Your task to perform on an android device: How much does a 3 bedroom apartment rent for in Houston? Image 0: 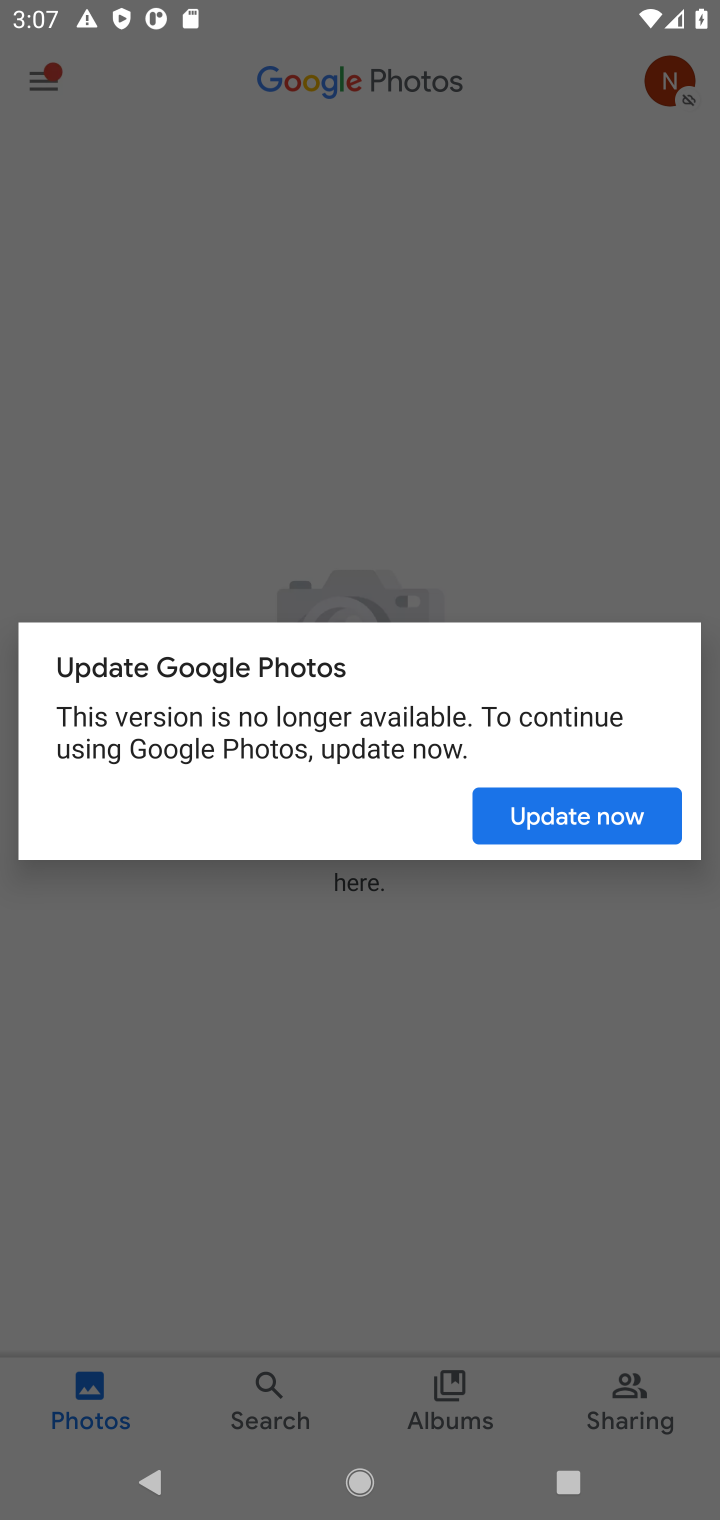
Step 0: press home button
Your task to perform on an android device: How much does a 3 bedroom apartment rent for in Houston? Image 1: 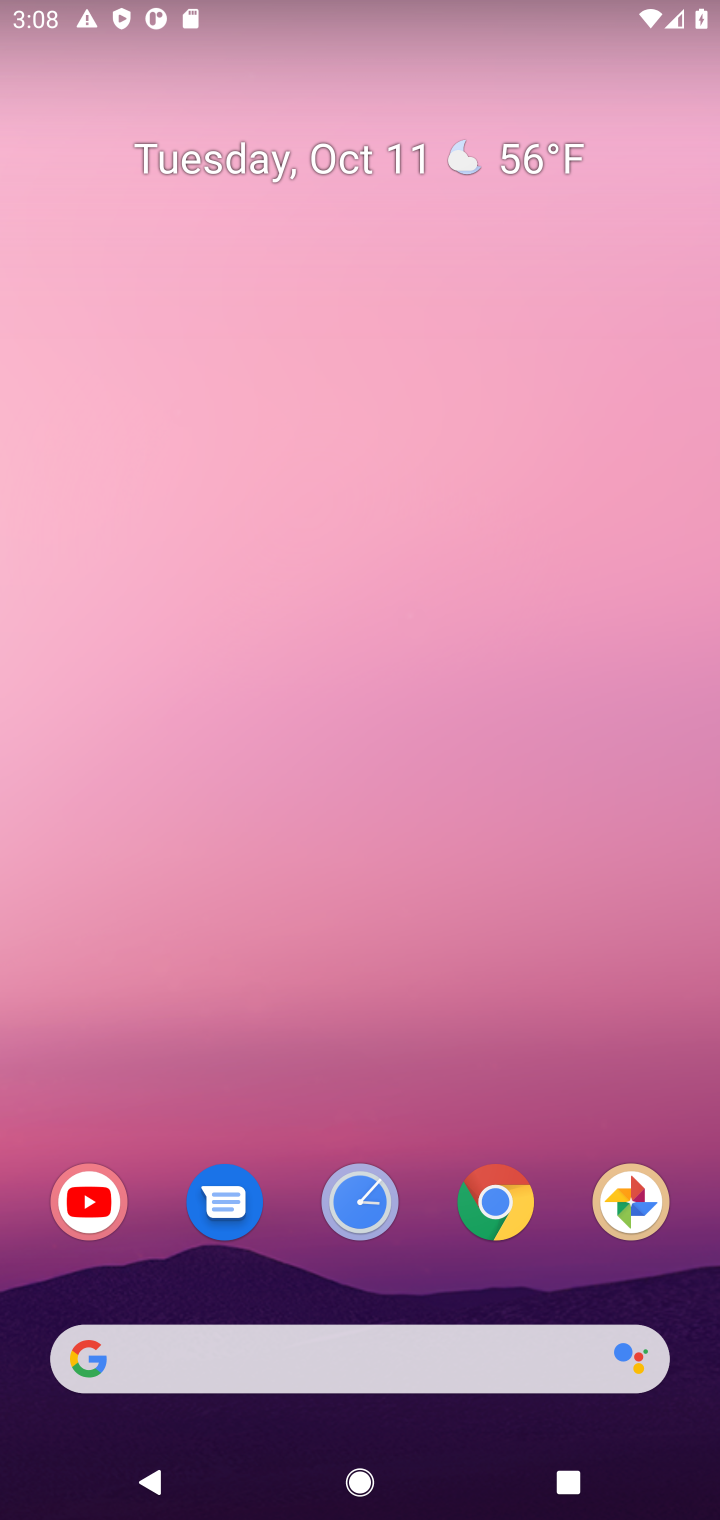
Step 1: drag from (432, 1287) to (326, 40)
Your task to perform on an android device: How much does a 3 bedroom apartment rent for in Houston? Image 2: 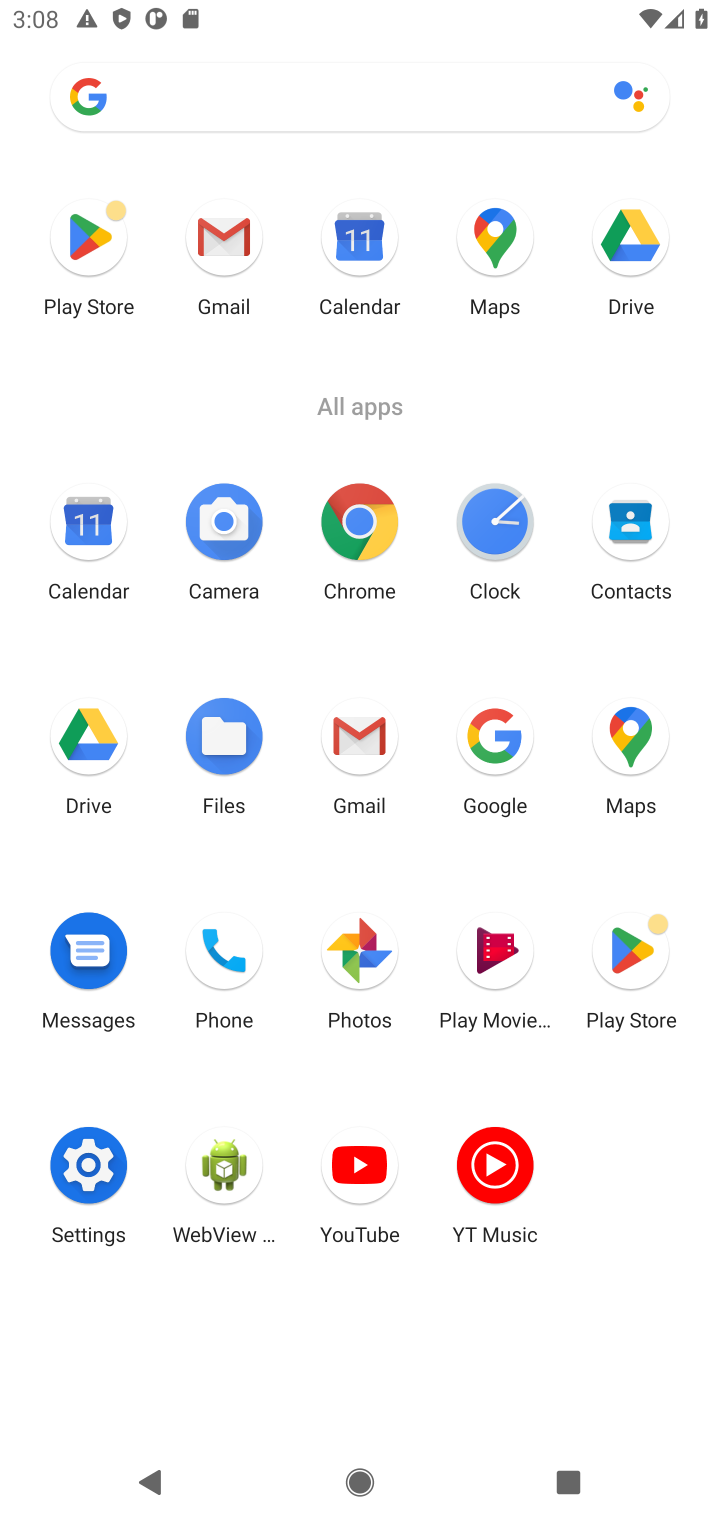
Step 2: click (359, 536)
Your task to perform on an android device: How much does a 3 bedroom apartment rent for in Houston? Image 3: 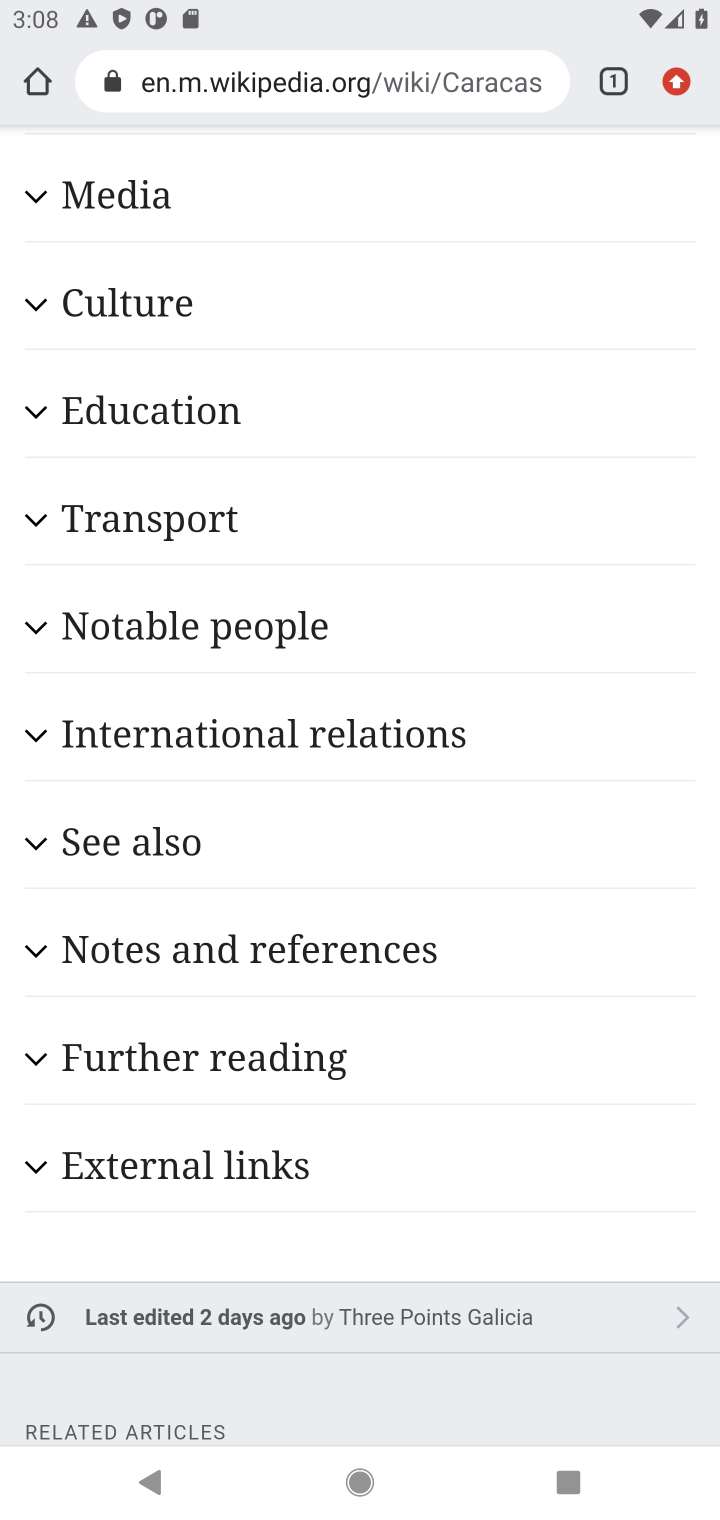
Step 3: click (268, 103)
Your task to perform on an android device: How much does a 3 bedroom apartment rent for in Houston? Image 4: 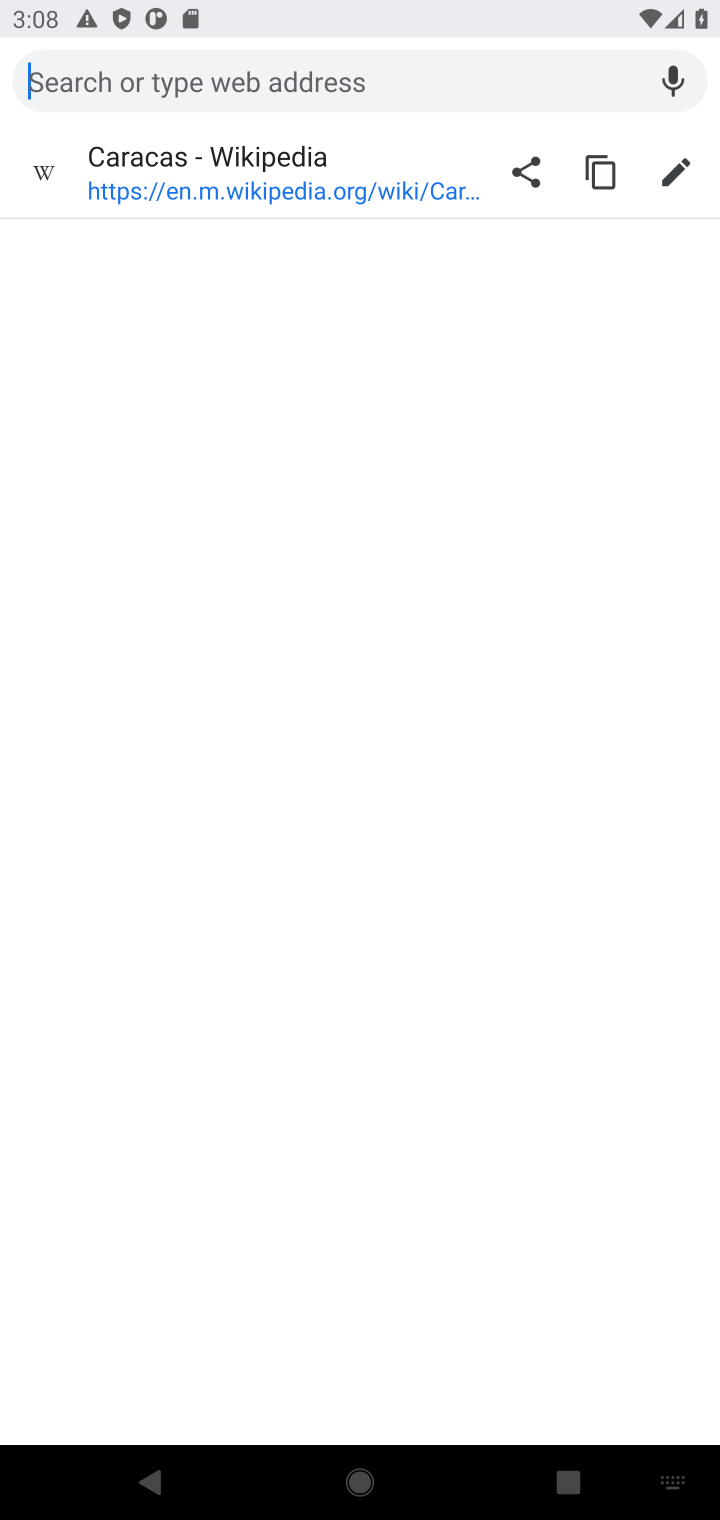
Step 4: type "How much does a 3 bedroom apartment rent for in Houston?"
Your task to perform on an android device: How much does a 3 bedroom apartment rent for in Houston? Image 5: 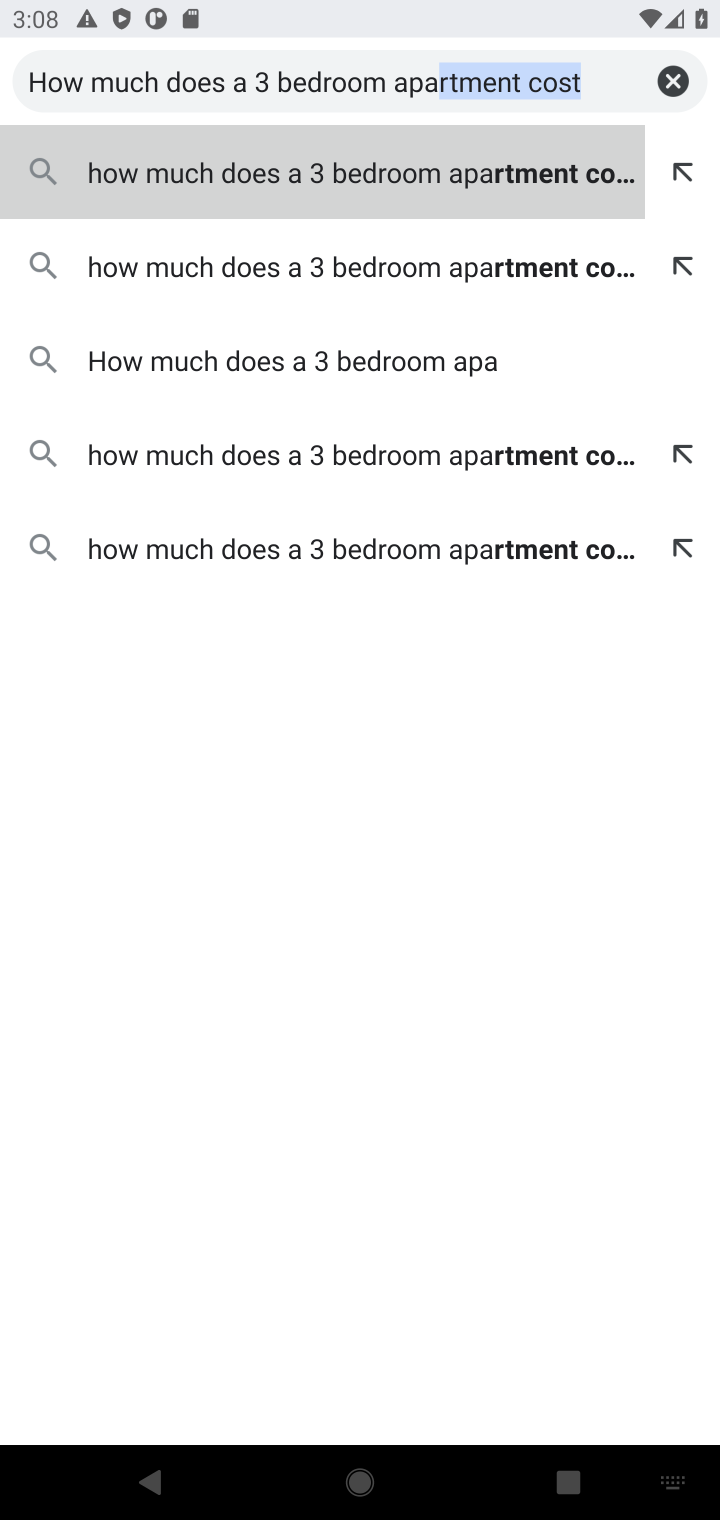
Step 5: press enter
Your task to perform on an android device: How much does a 3 bedroom apartment rent for in Houston? Image 6: 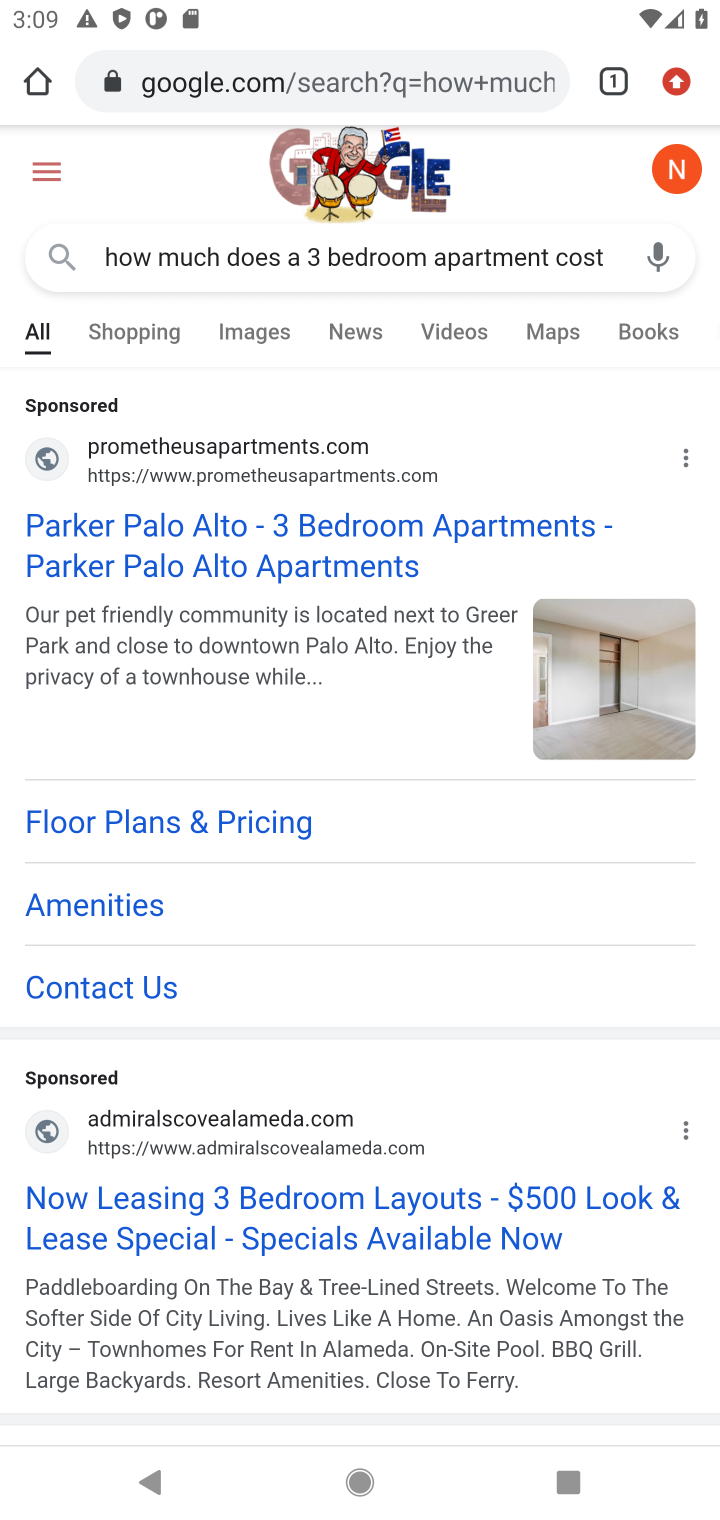
Step 6: drag from (512, 355) to (495, 90)
Your task to perform on an android device: How much does a 3 bedroom apartment rent for in Houston? Image 7: 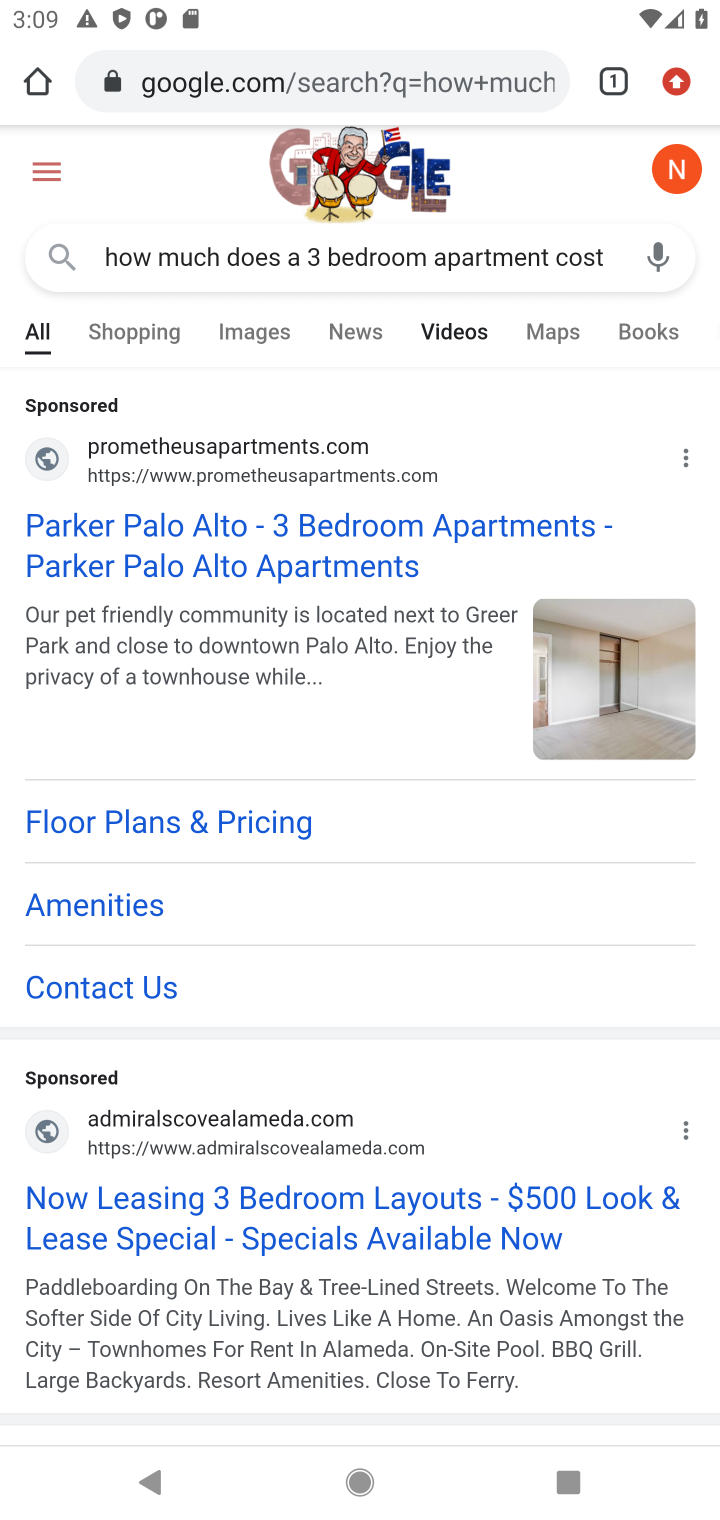
Step 7: drag from (380, 597) to (444, 293)
Your task to perform on an android device: How much does a 3 bedroom apartment rent for in Houston? Image 8: 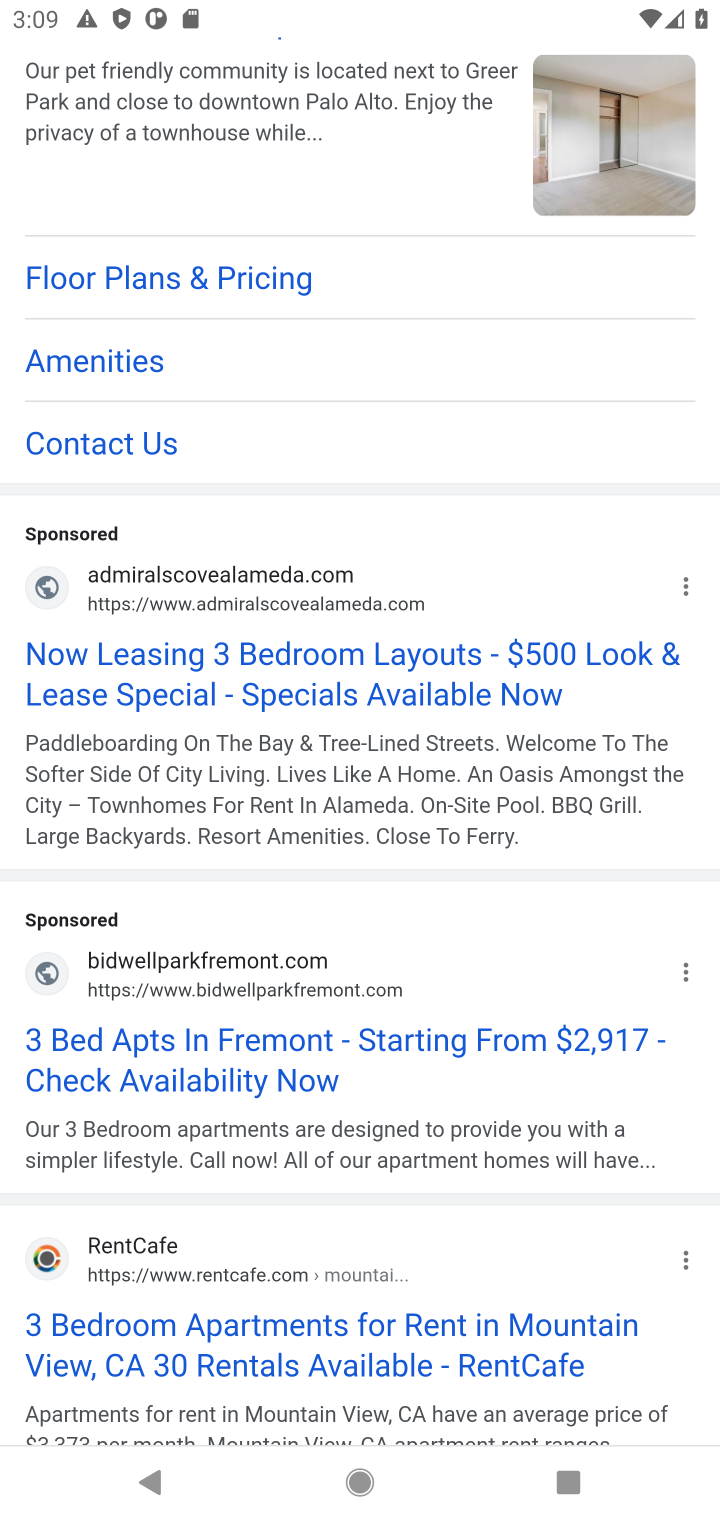
Step 8: click (217, 653)
Your task to perform on an android device: How much does a 3 bedroom apartment rent for in Houston? Image 9: 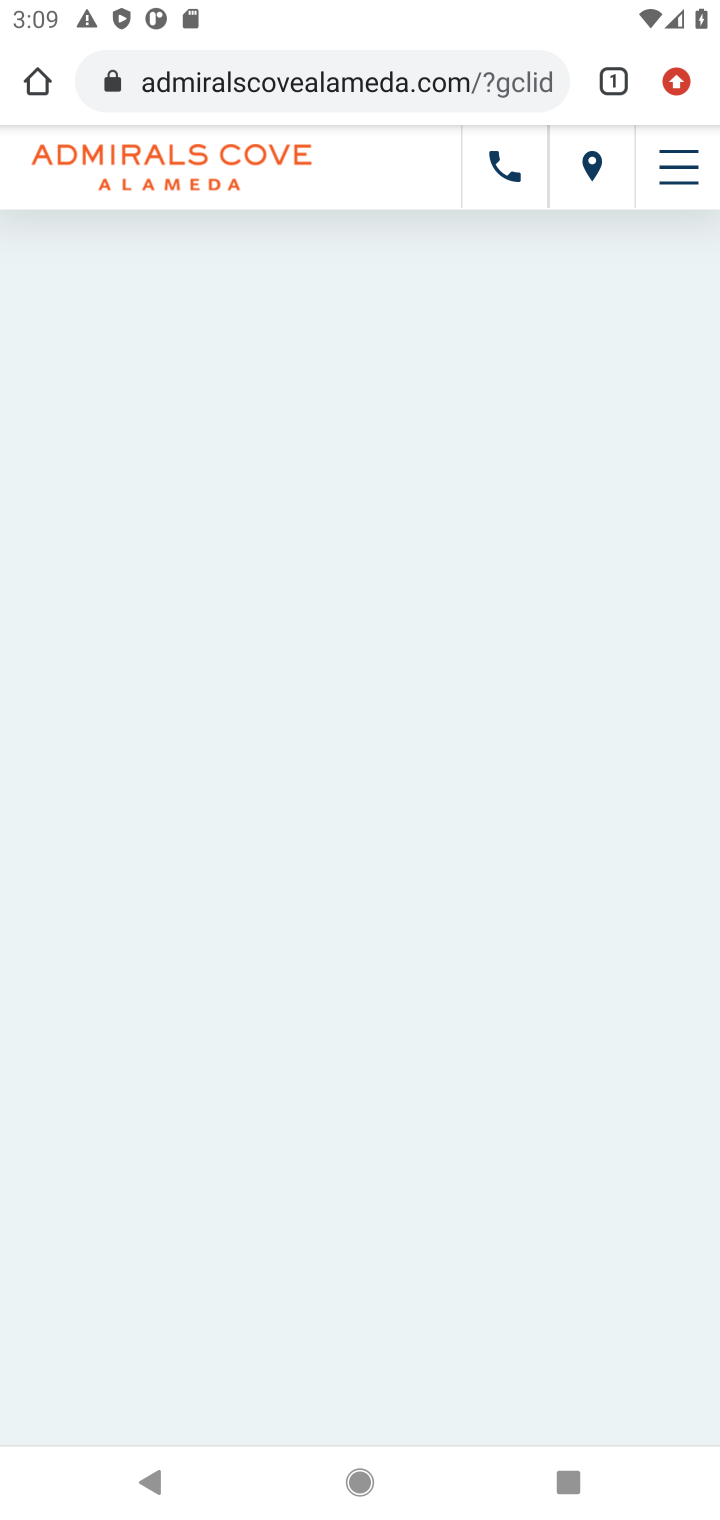
Step 9: drag from (335, 859) to (463, 864)
Your task to perform on an android device: How much does a 3 bedroom apartment rent for in Houston? Image 10: 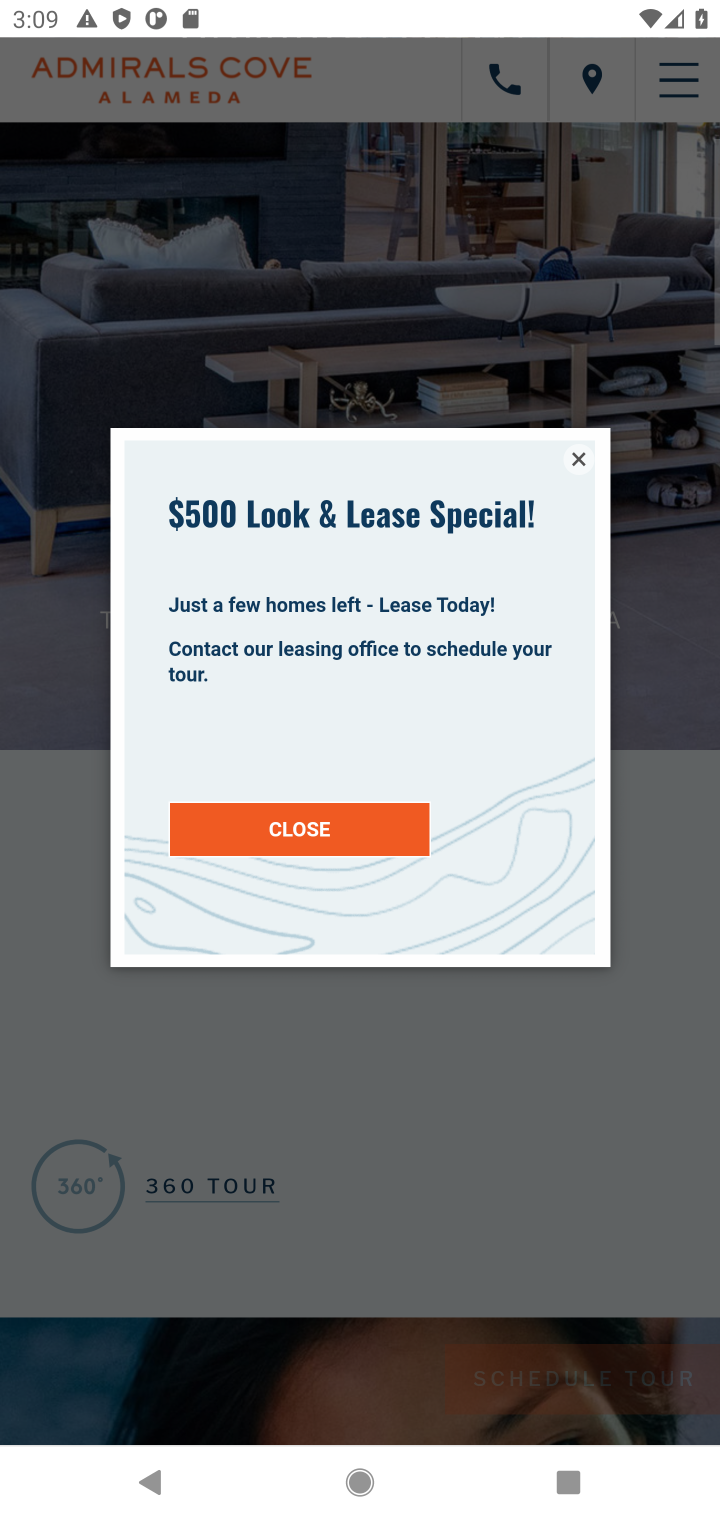
Step 10: click (291, 900)
Your task to perform on an android device: How much does a 3 bedroom apartment rent for in Houston? Image 11: 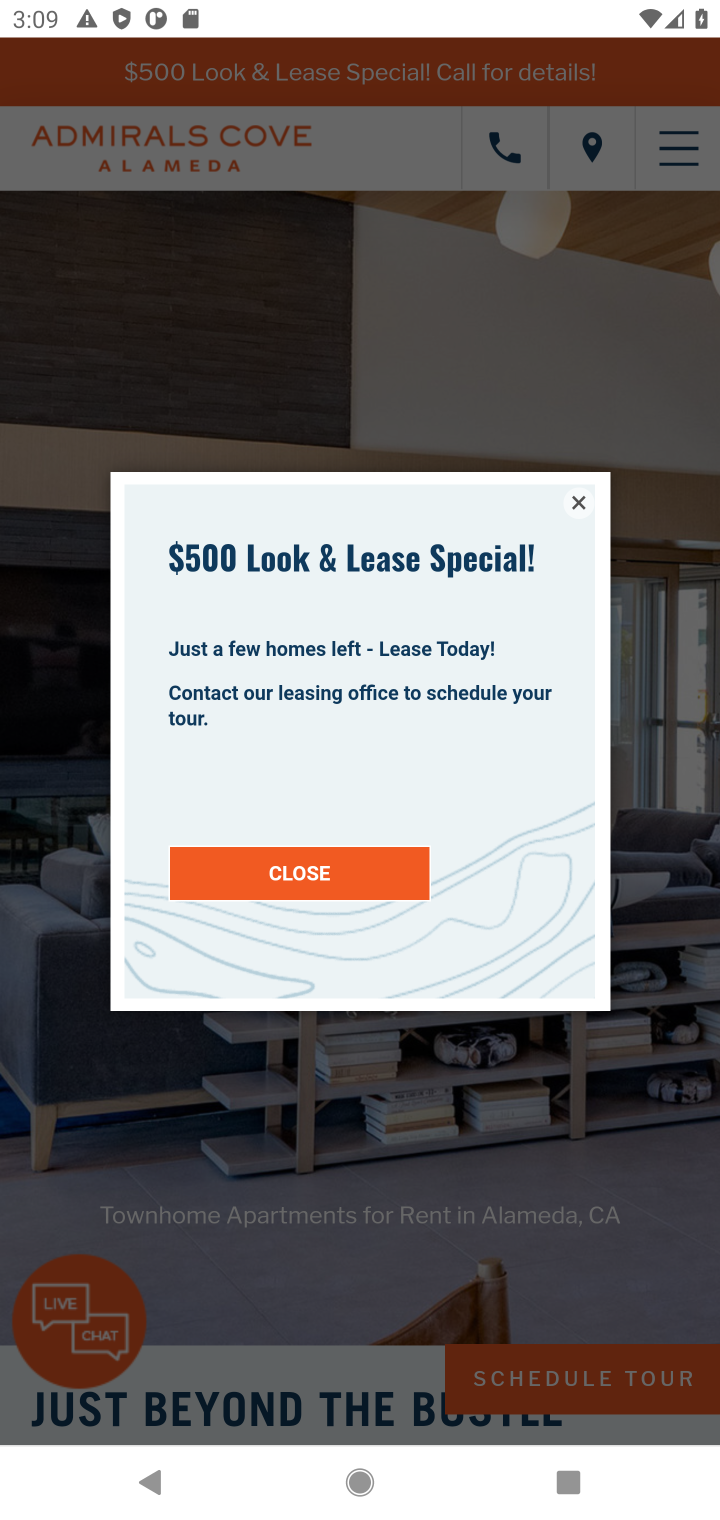
Step 11: click (289, 857)
Your task to perform on an android device: How much does a 3 bedroom apartment rent for in Houston? Image 12: 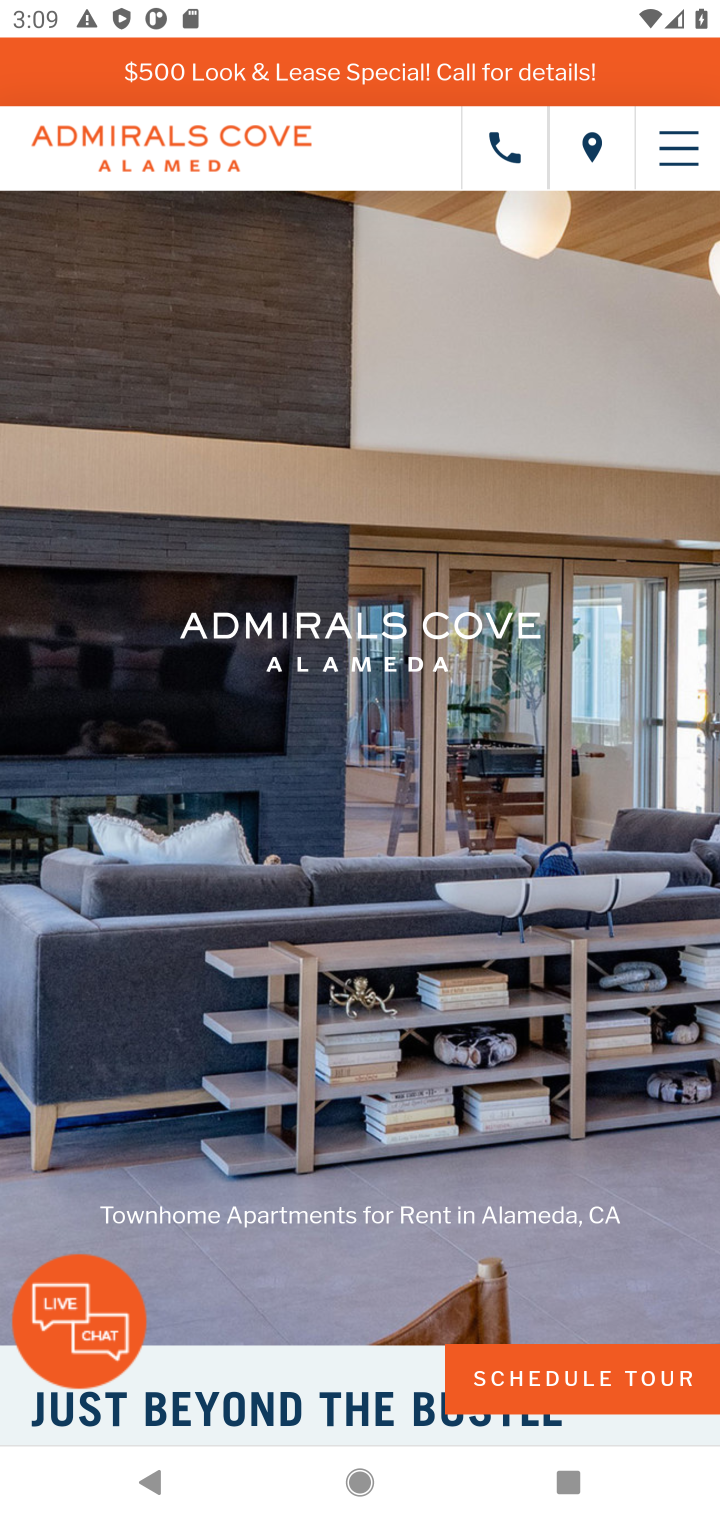
Step 12: drag from (506, 474) to (538, 352)
Your task to perform on an android device: How much does a 3 bedroom apartment rent for in Houston? Image 13: 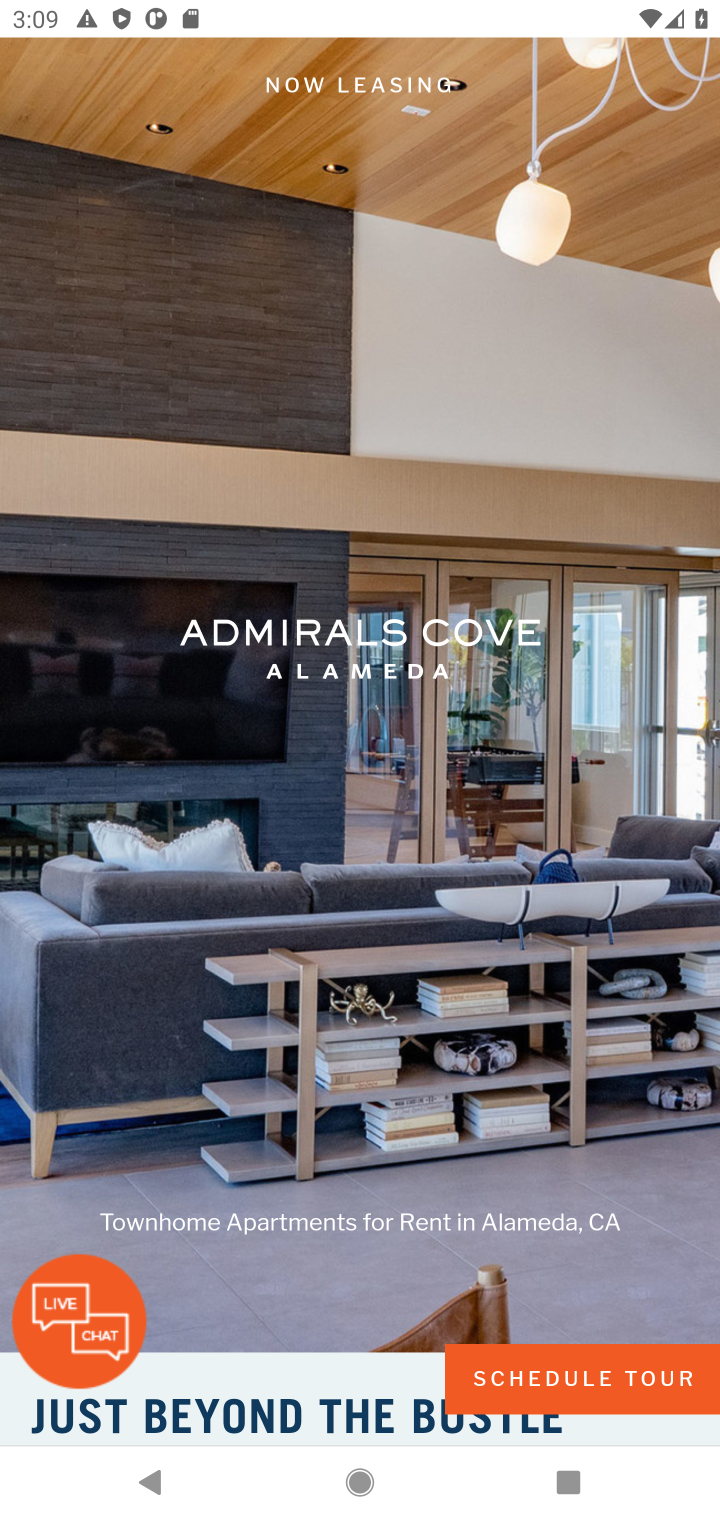
Step 13: drag from (559, 338) to (474, 548)
Your task to perform on an android device: How much does a 3 bedroom apartment rent for in Houston? Image 14: 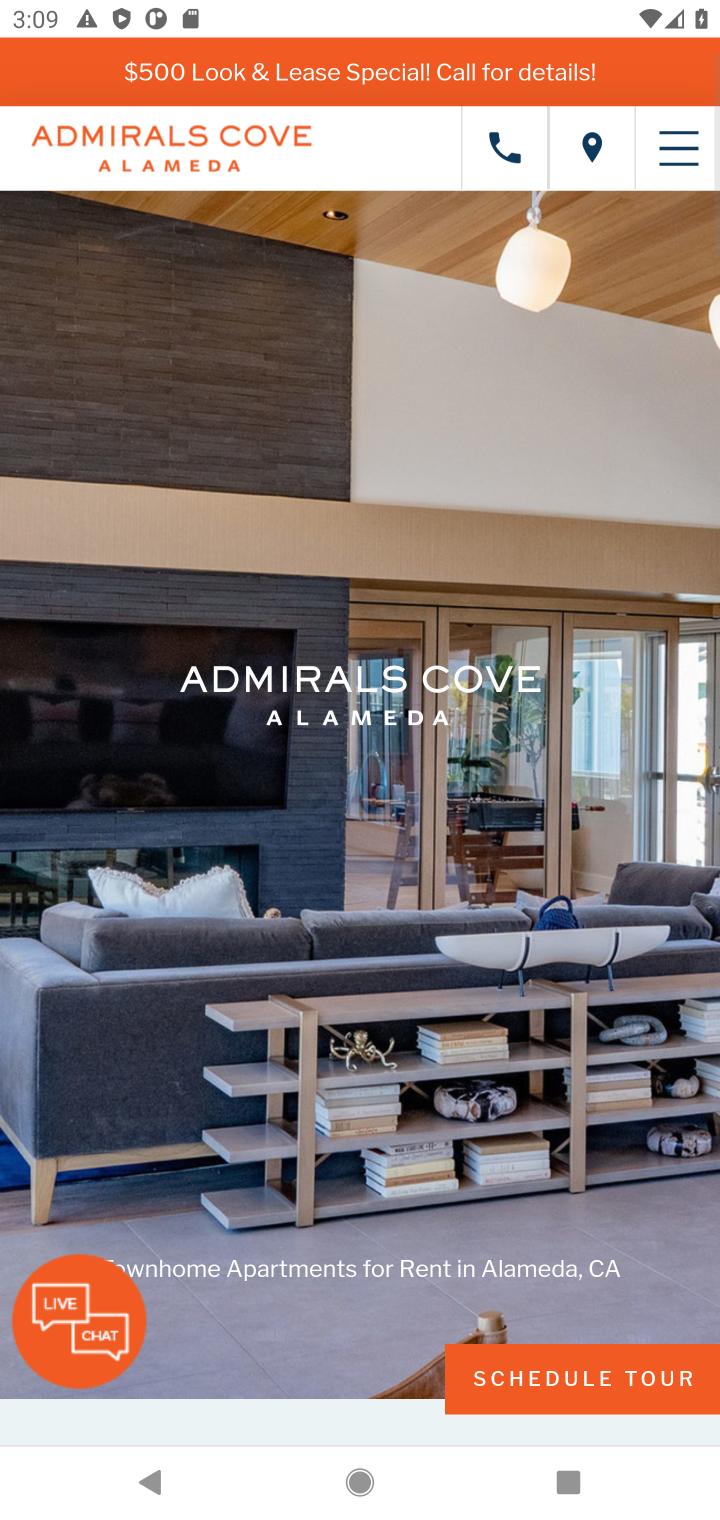
Step 14: click (535, 385)
Your task to perform on an android device: How much does a 3 bedroom apartment rent for in Houston? Image 15: 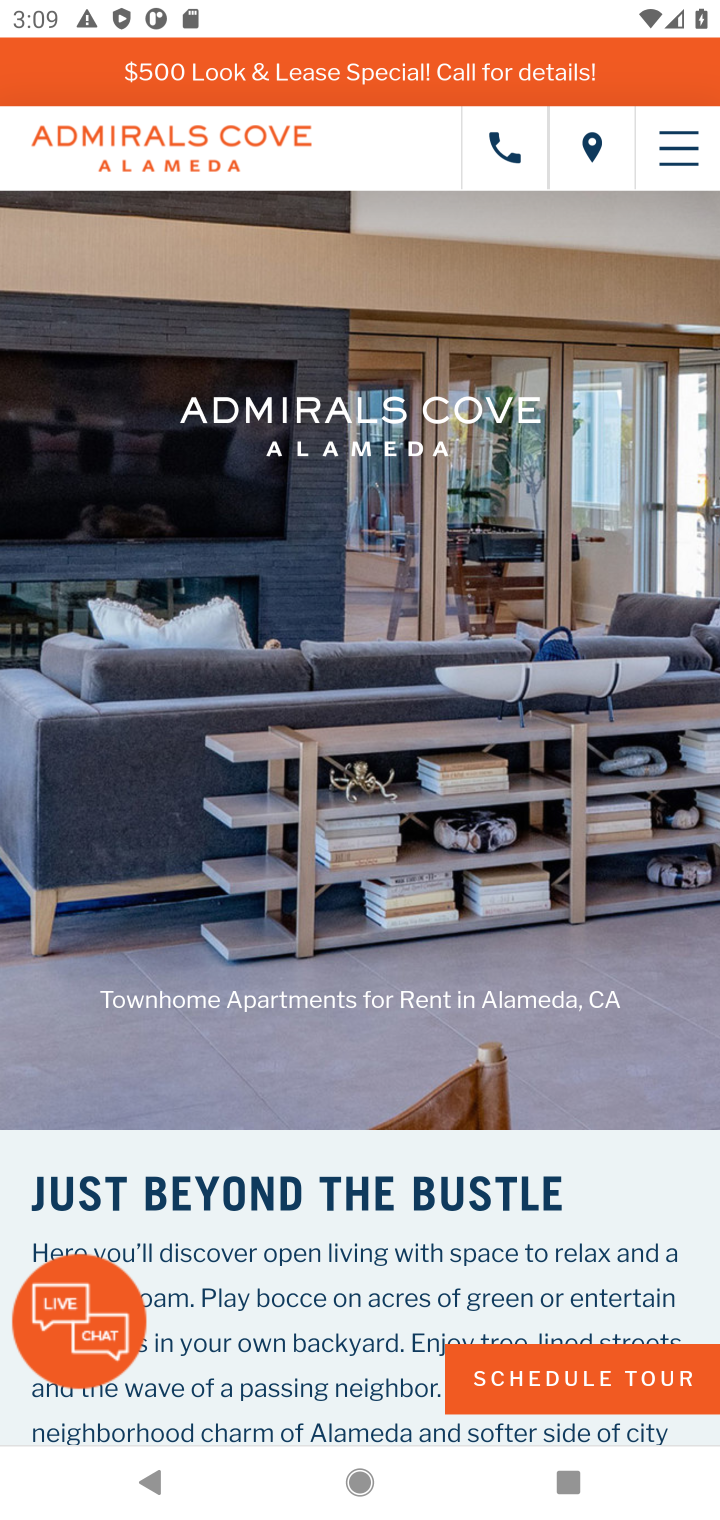
Step 15: press back button
Your task to perform on an android device: How much does a 3 bedroom apartment rent for in Houston? Image 16: 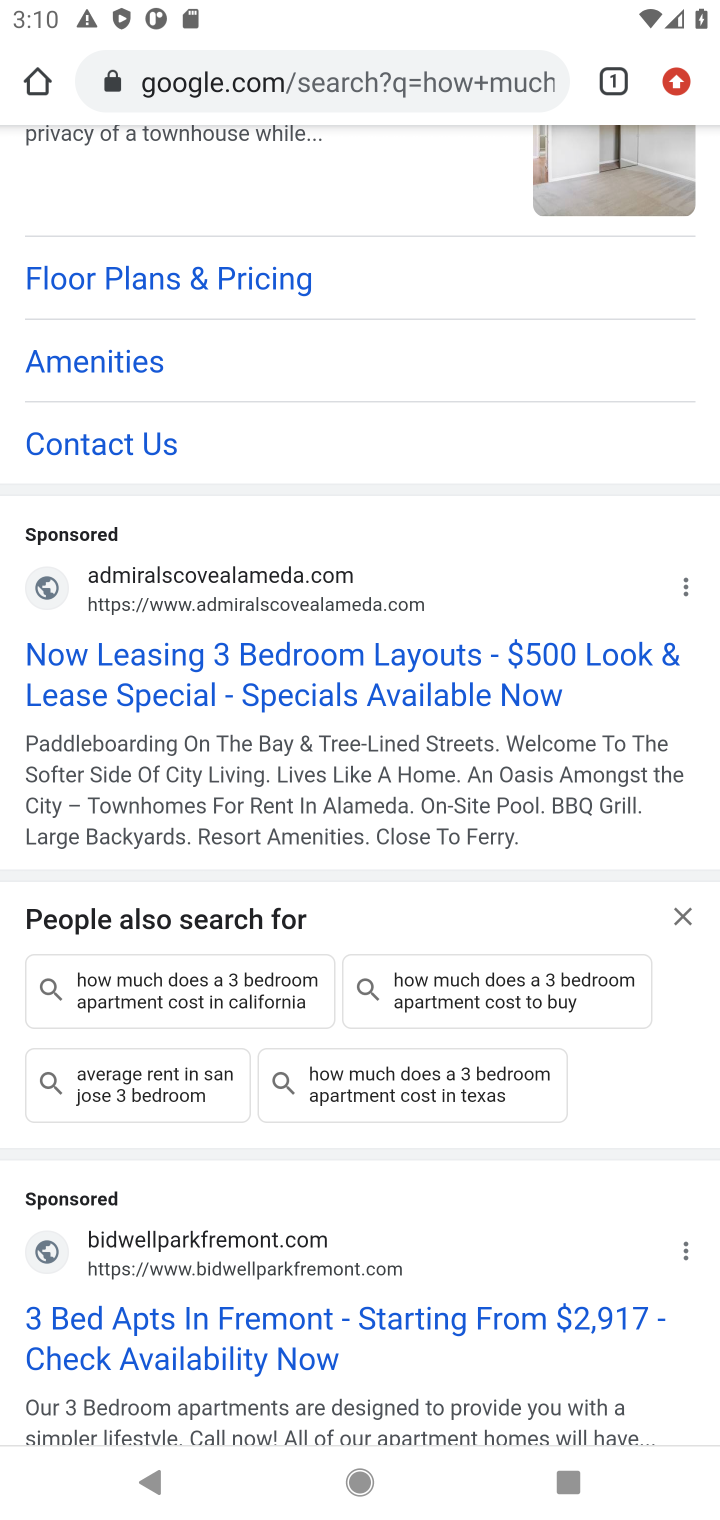
Step 16: drag from (399, 829) to (401, 360)
Your task to perform on an android device: How much does a 3 bedroom apartment rent for in Houston? Image 17: 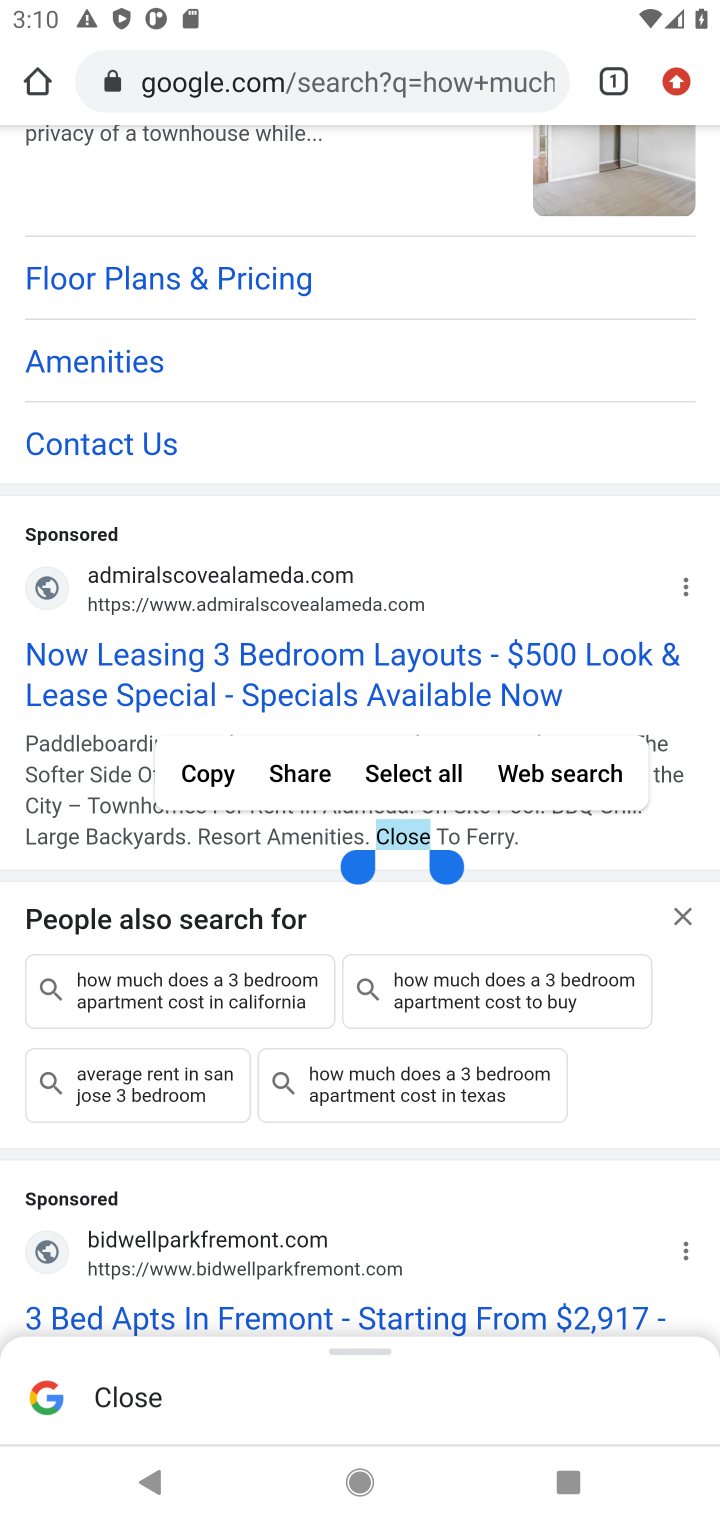
Step 17: click (239, 1296)
Your task to perform on an android device: How much does a 3 bedroom apartment rent for in Houston? Image 18: 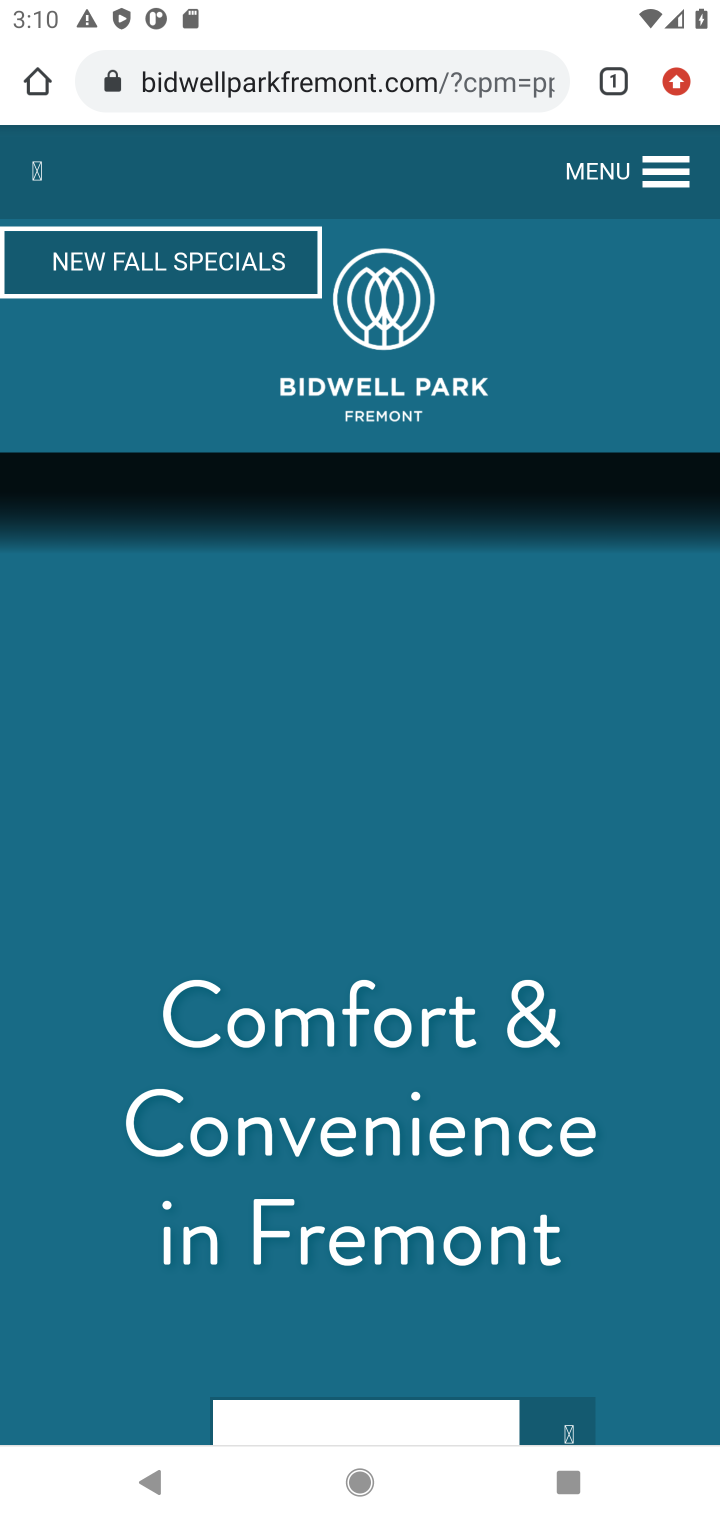
Step 18: drag from (239, 1294) to (338, 449)
Your task to perform on an android device: How much does a 3 bedroom apartment rent for in Houston? Image 19: 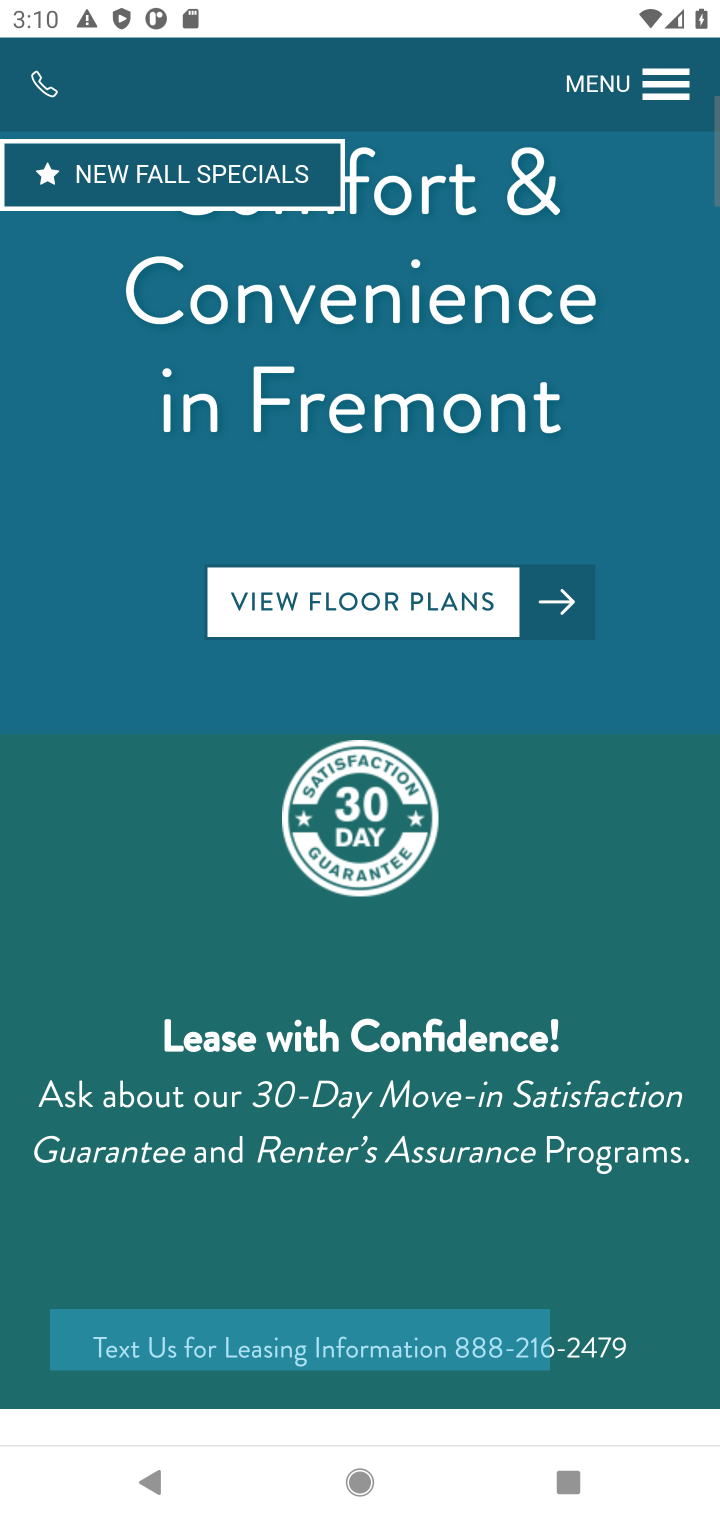
Step 19: drag from (367, 1223) to (389, 368)
Your task to perform on an android device: How much does a 3 bedroom apartment rent for in Houston? Image 20: 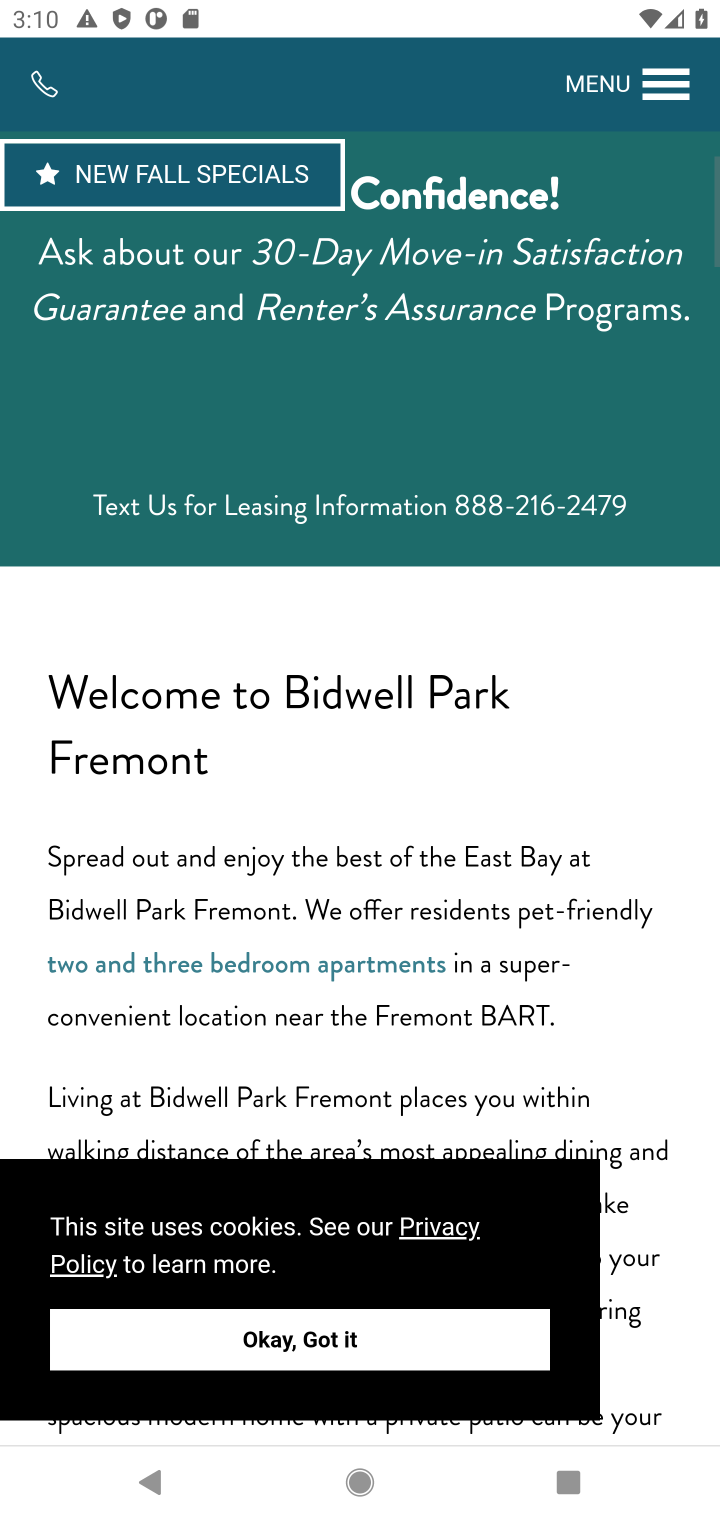
Step 20: drag from (429, 833) to (443, 334)
Your task to perform on an android device: How much does a 3 bedroom apartment rent for in Houston? Image 21: 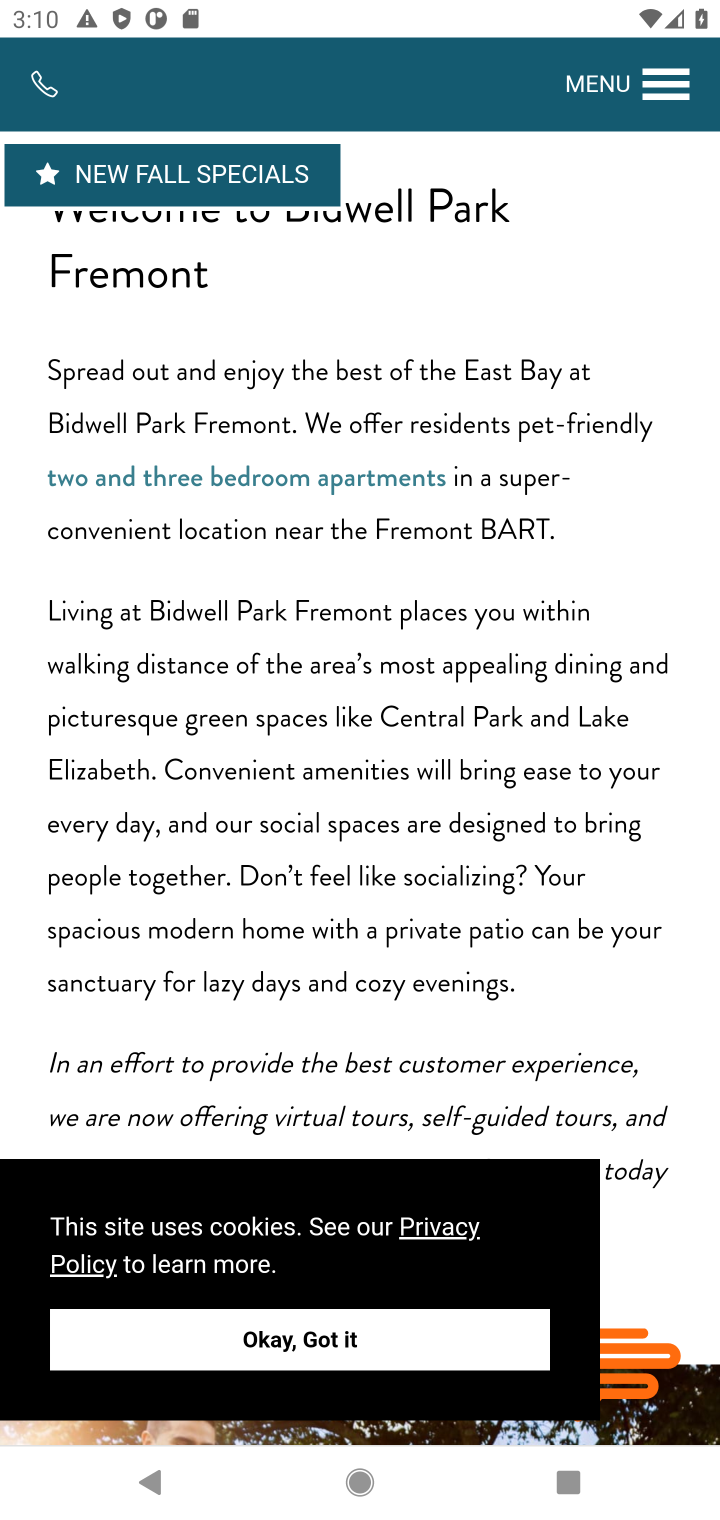
Step 21: click (284, 1322)
Your task to perform on an android device: How much does a 3 bedroom apartment rent for in Houston? Image 22: 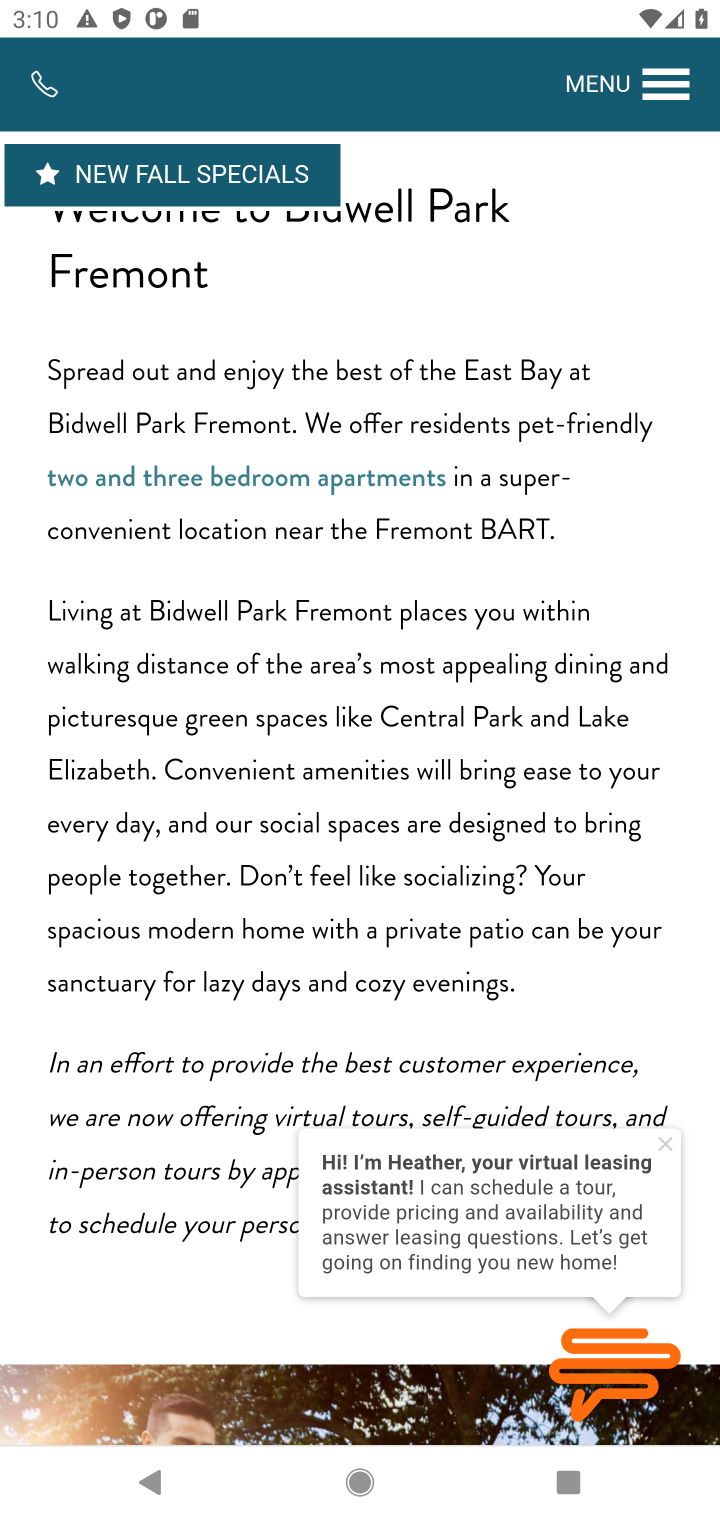
Step 22: drag from (338, 1097) to (379, 427)
Your task to perform on an android device: How much does a 3 bedroom apartment rent for in Houston? Image 23: 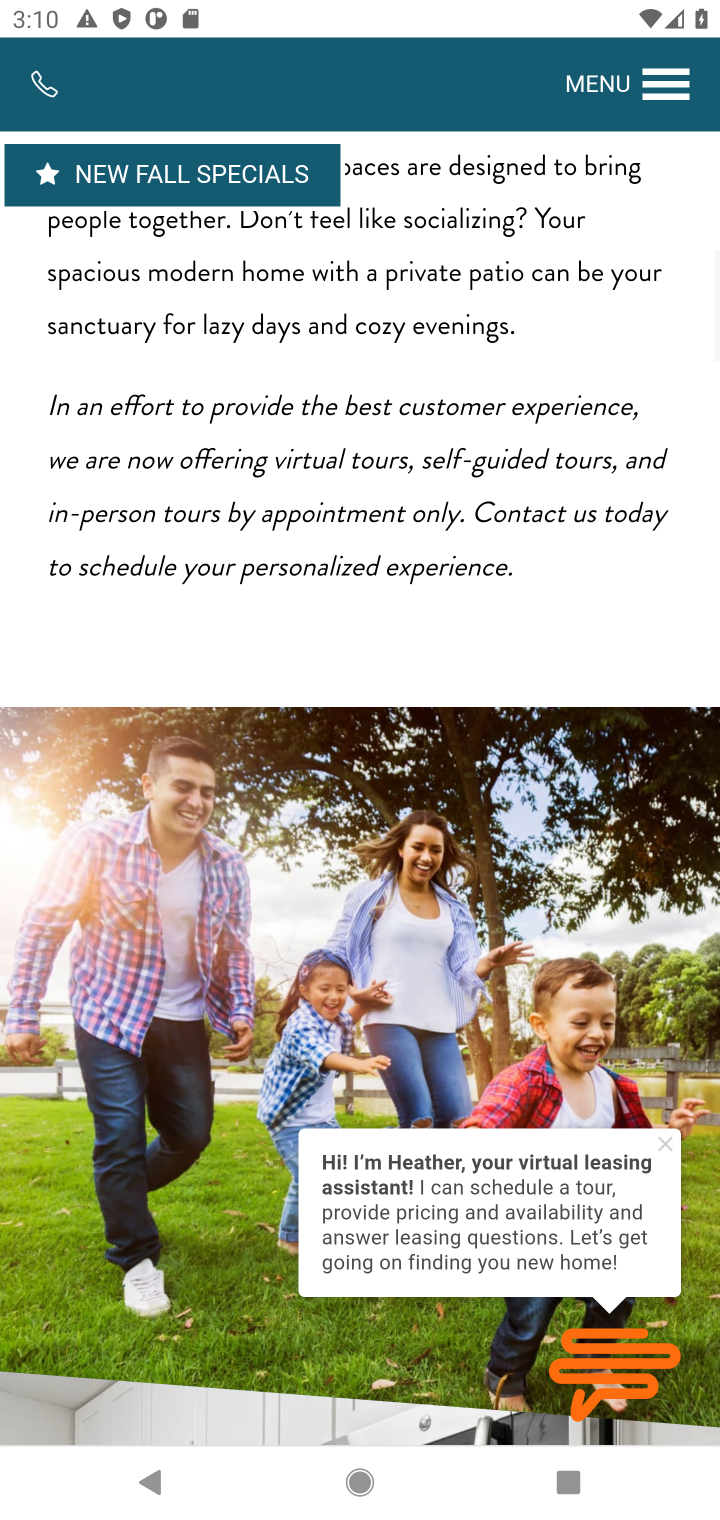
Step 23: drag from (424, 453) to (532, 262)
Your task to perform on an android device: How much does a 3 bedroom apartment rent for in Houston? Image 24: 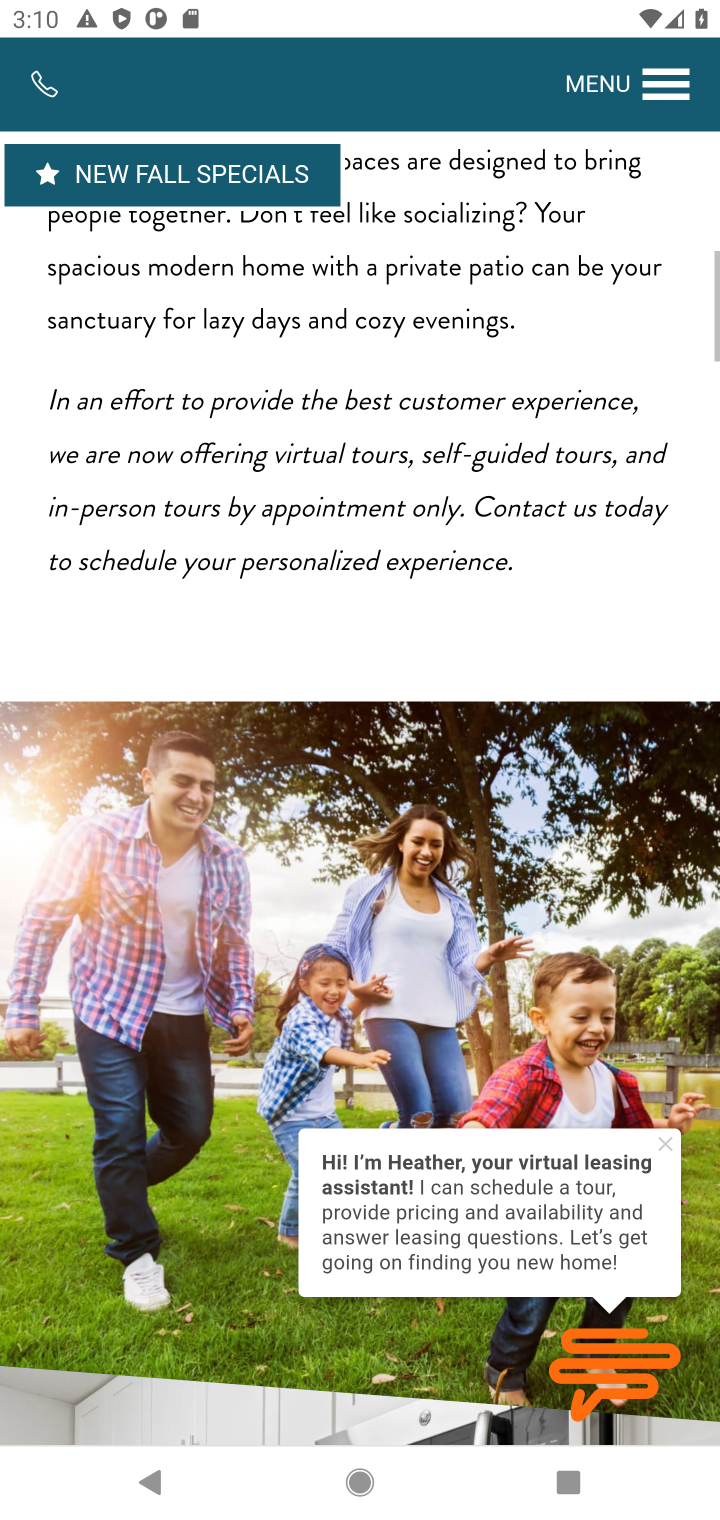
Step 24: click (529, 242)
Your task to perform on an android device: How much does a 3 bedroom apartment rent for in Houston? Image 25: 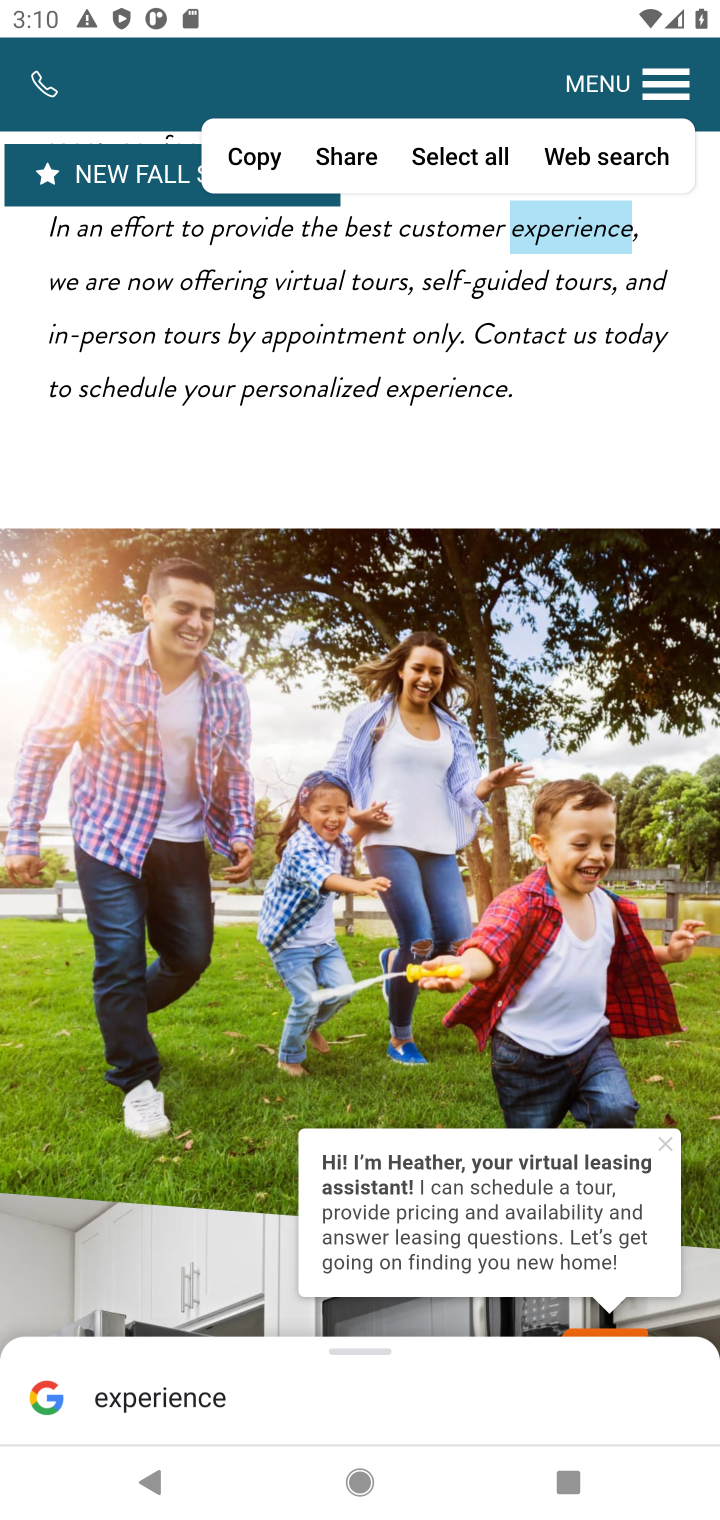
Step 25: drag from (427, 597) to (478, 265)
Your task to perform on an android device: How much does a 3 bedroom apartment rent for in Houston? Image 26: 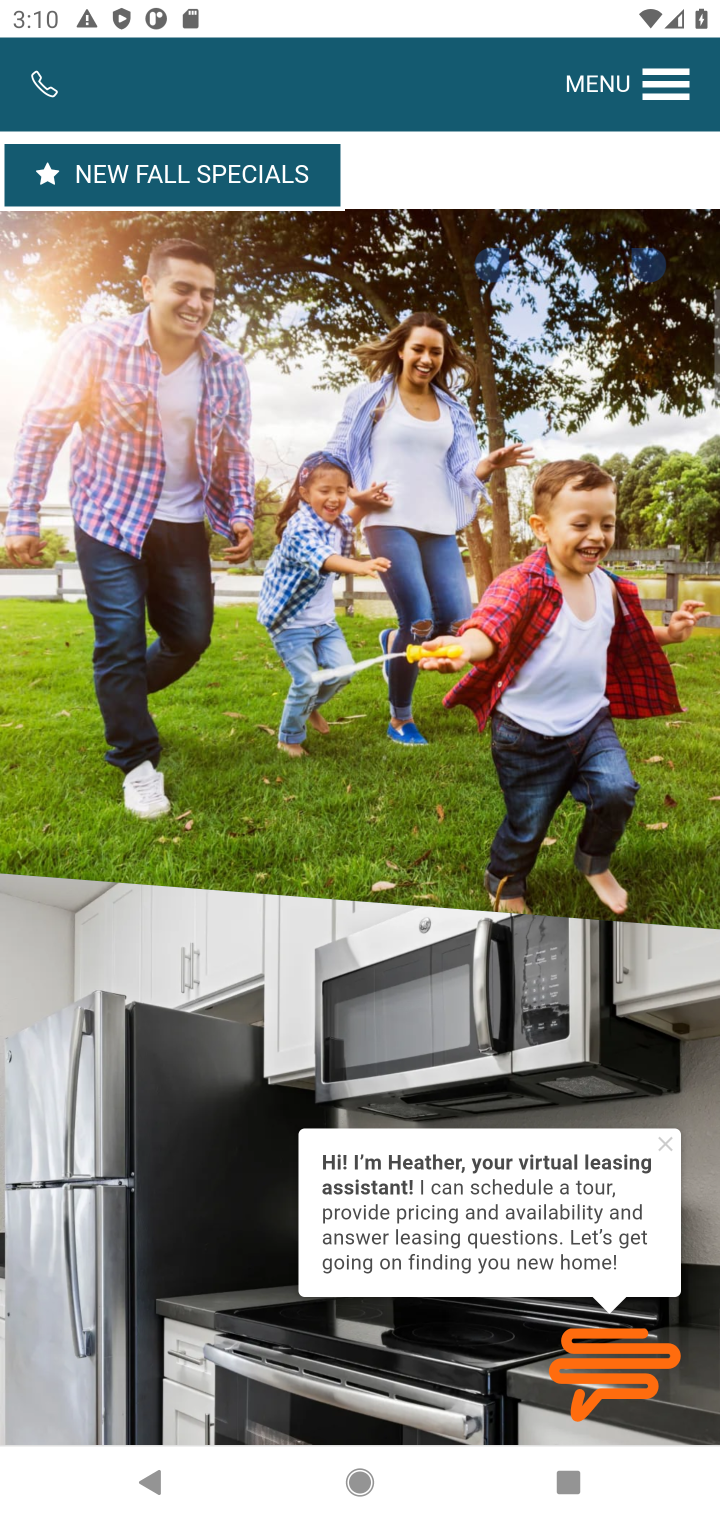
Step 26: click (496, 481)
Your task to perform on an android device: How much does a 3 bedroom apartment rent for in Houston? Image 27: 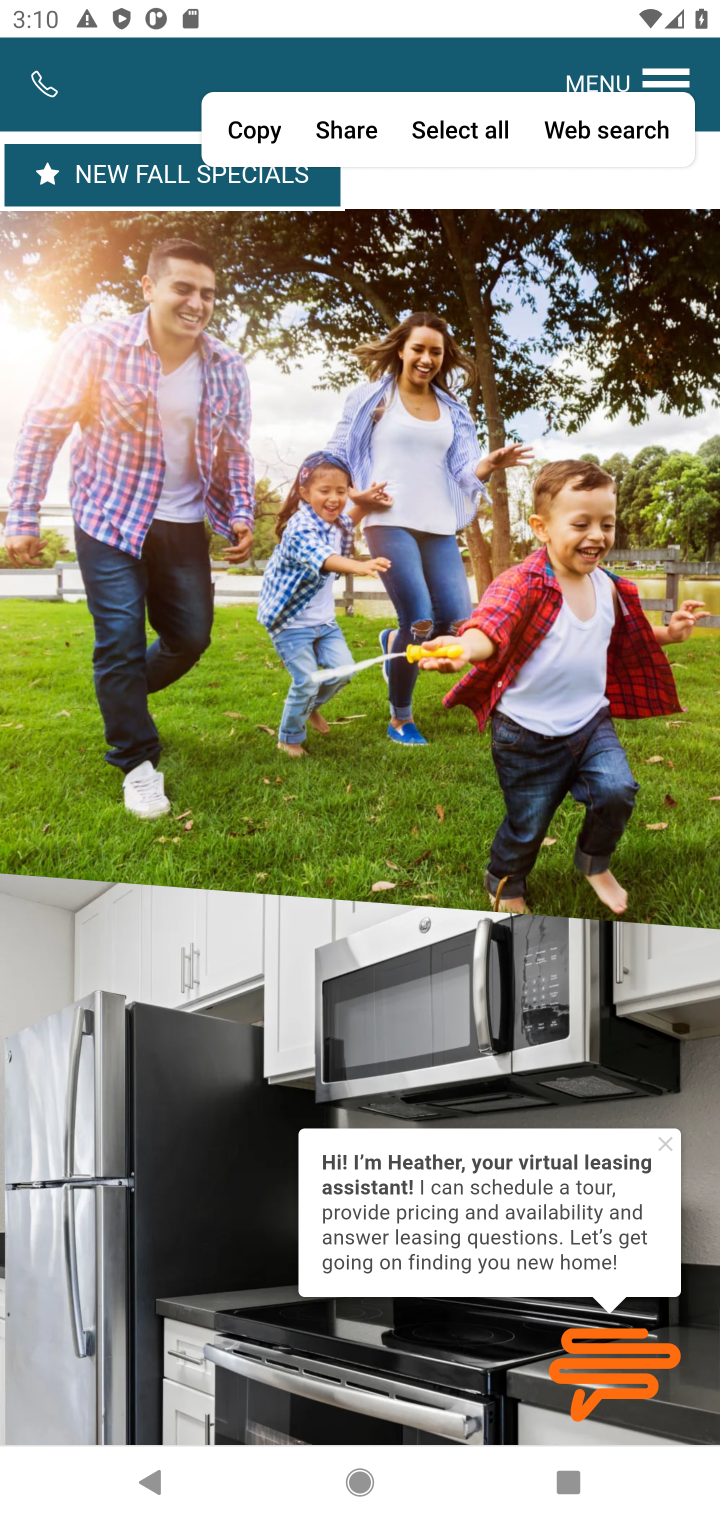
Step 27: drag from (515, 833) to (579, 418)
Your task to perform on an android device: How much does a 3 bedroom apartment rent for in Houston? Image 28: 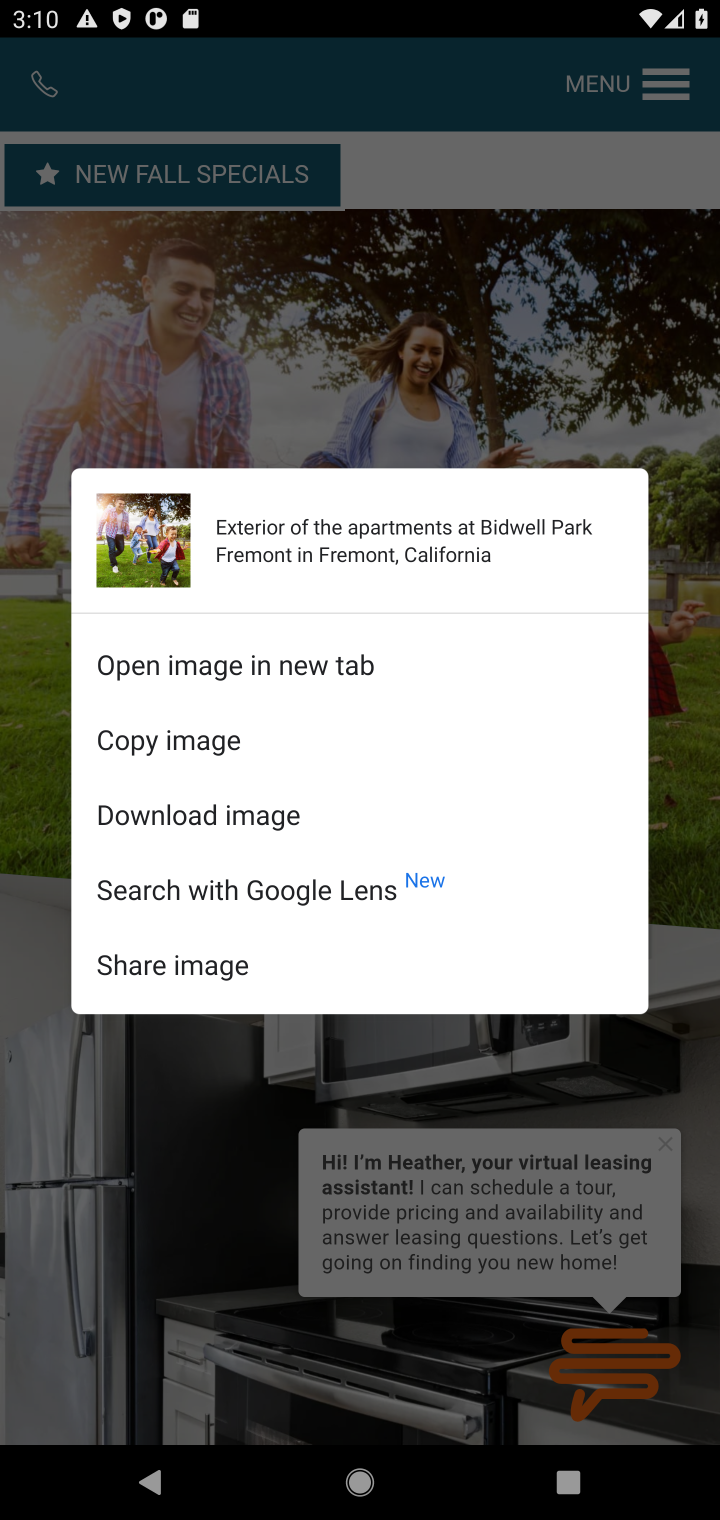
Step 28: click (654, 1149)
Your task to perform on an android device: How much does a 3 bedroom apartment rent for in Houston? Image 29: 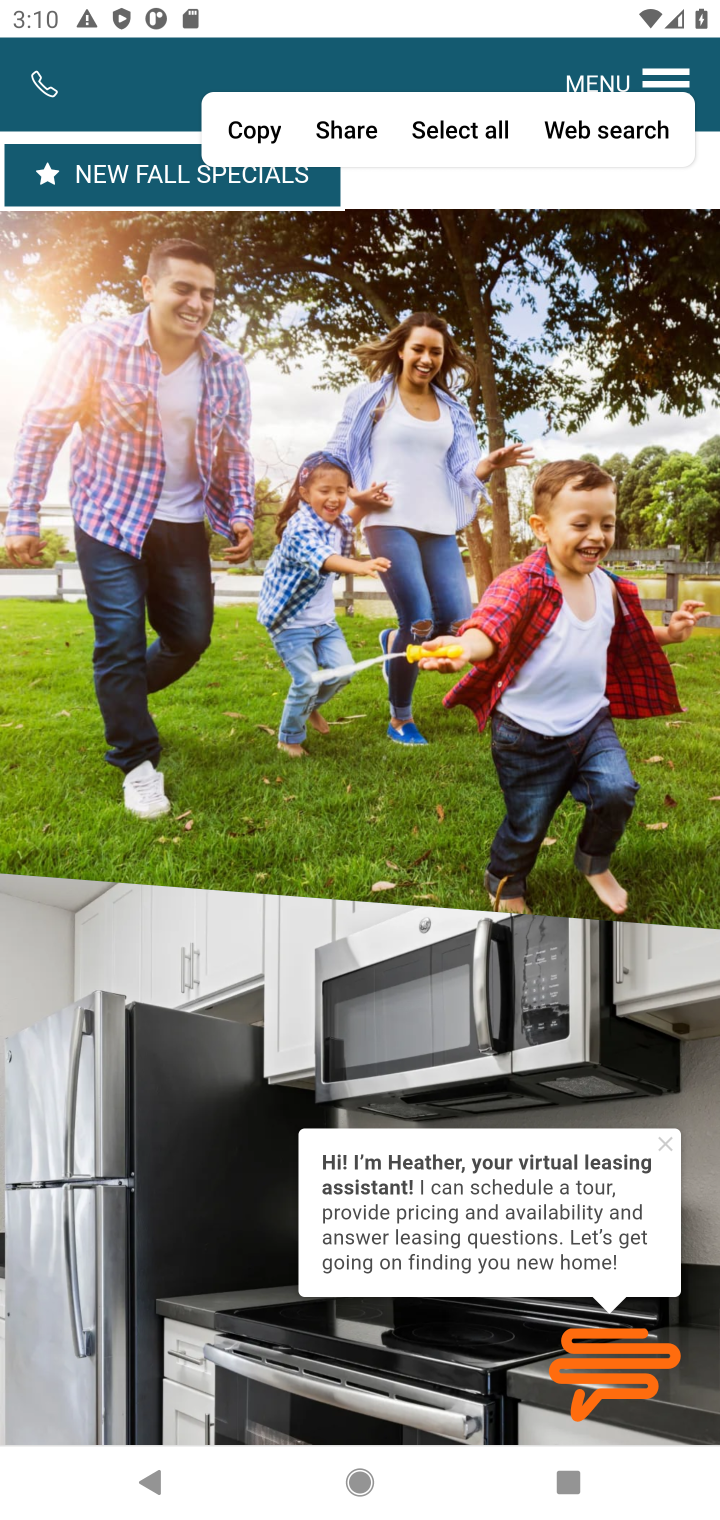
Step 29: click (666, 1159)
Your task to perform on an android device: How much does a 3 bedroom apartment rent for in Houston? Image 30: 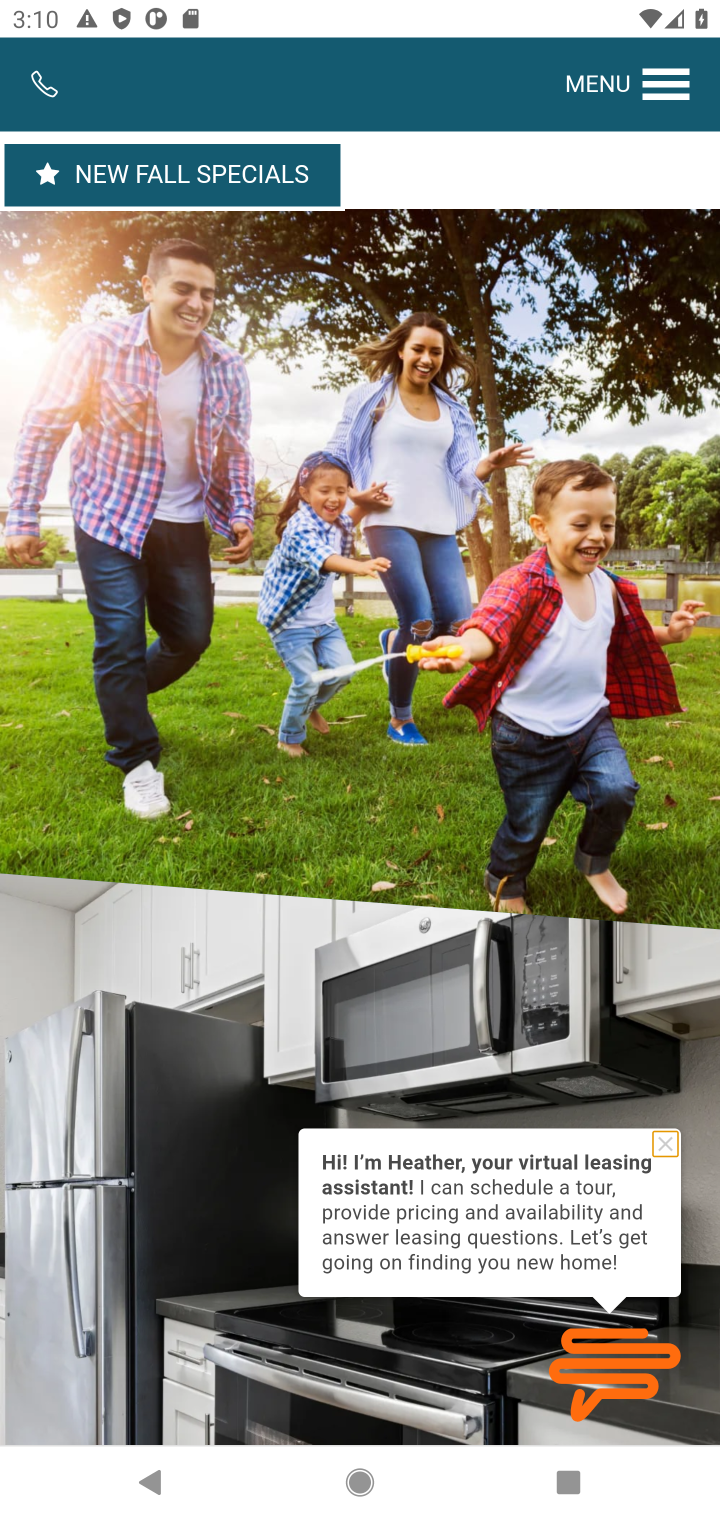
Step 30: click (562, 585)
Your task to perform on an android device: How much does a 3 bedroom apartment rent for in Houston? Image 31: 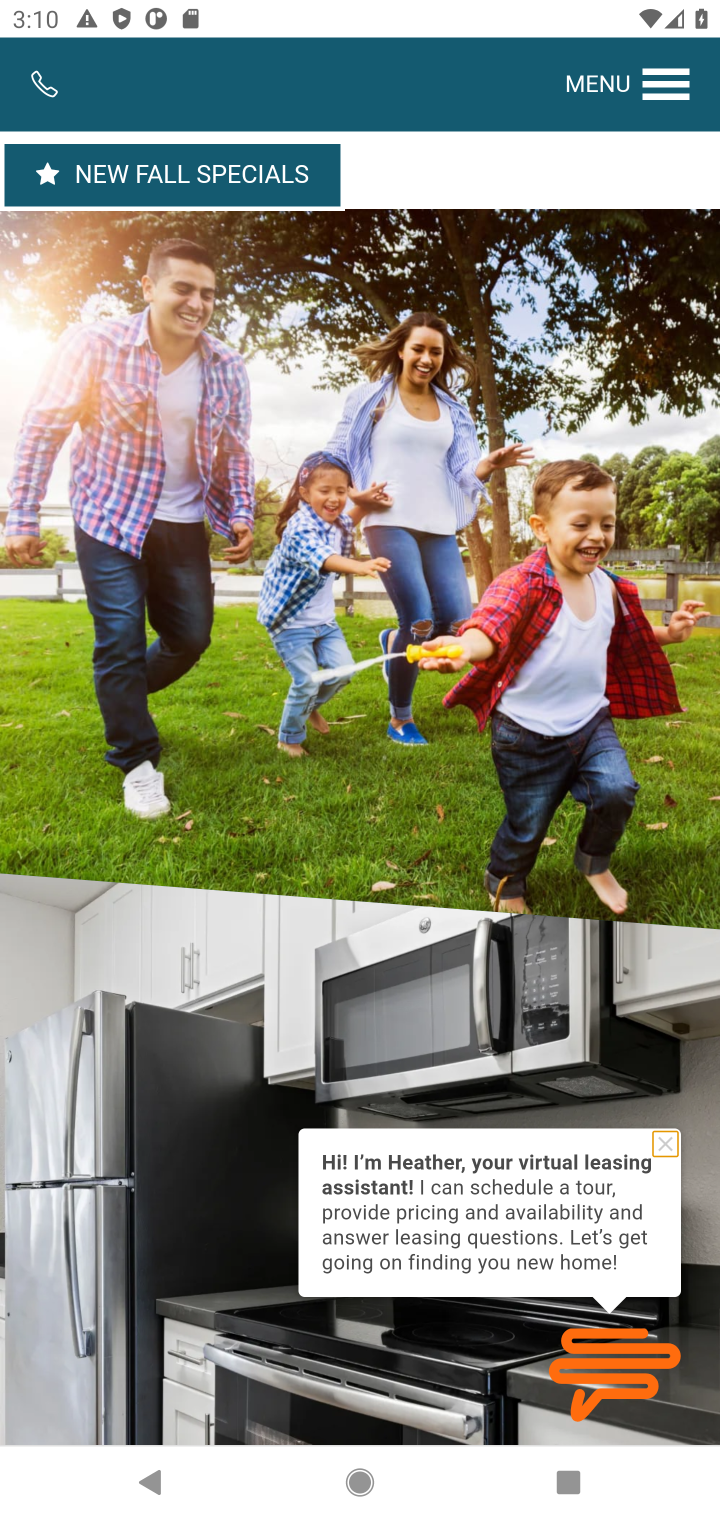
Step 31: drag from (581, 1044) to (583, 504)
Your task to perform on an android device: How much does a 3 bedroom apartment rent for in Houston? Image 32: 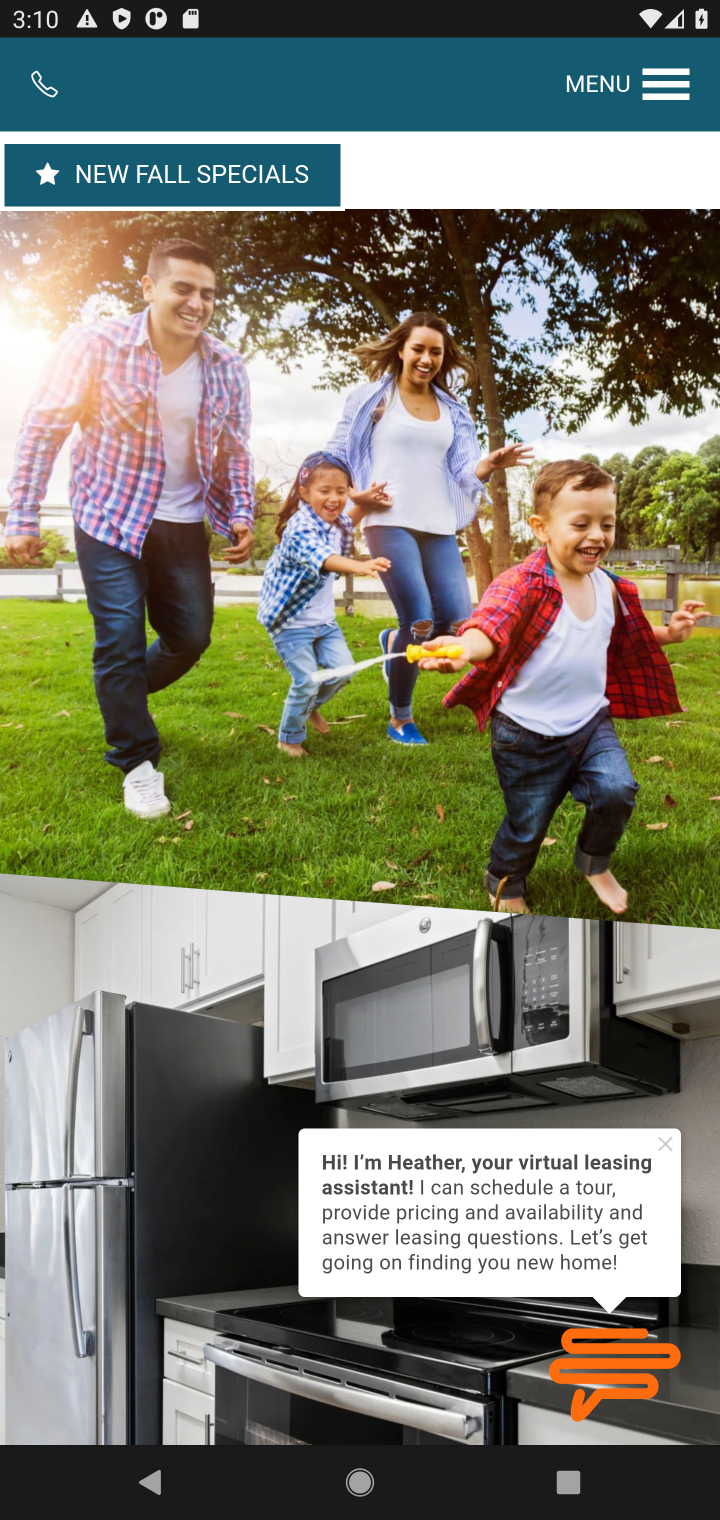
Step 32: click (650, 1141)
Your task to perform on an android device: How much does a 3 bedroom apartment rent for in Houston? Image 33: 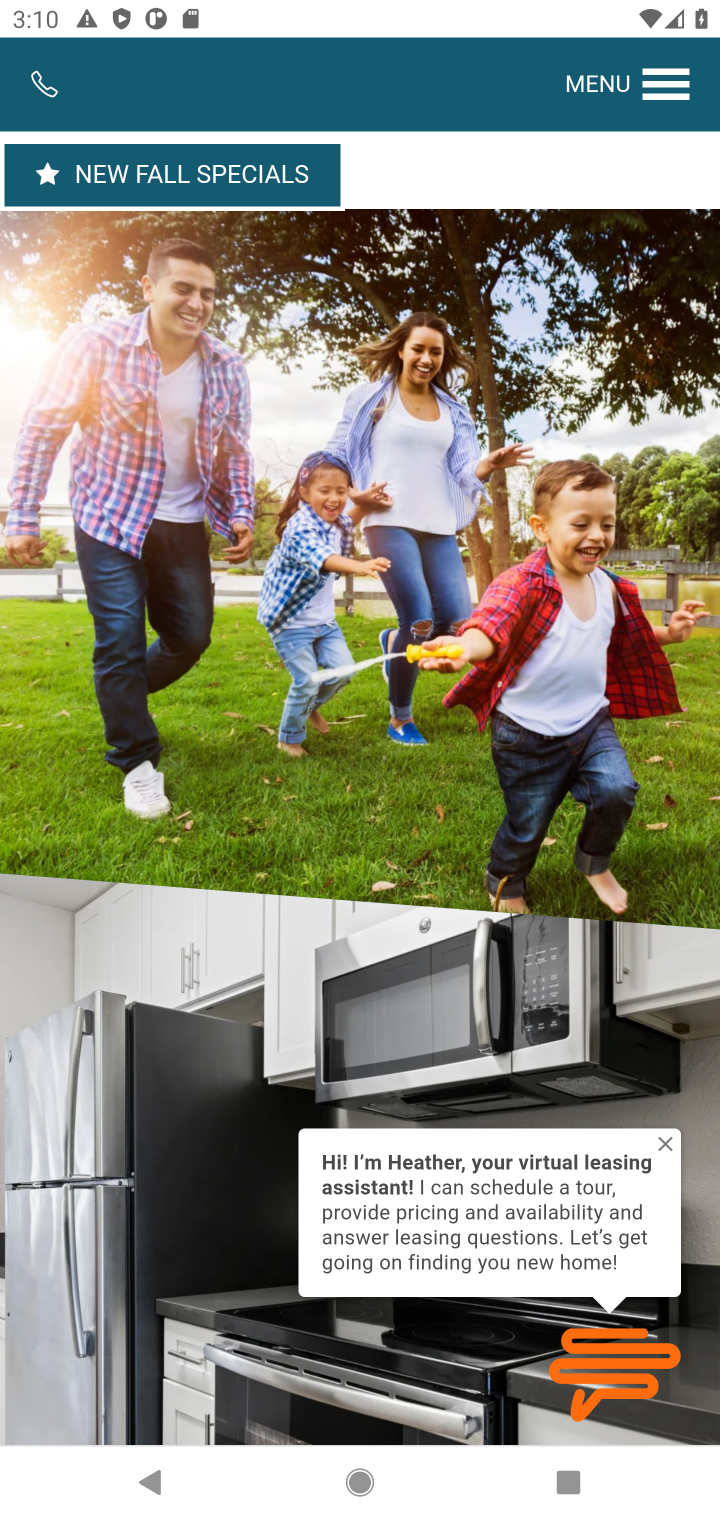
Step 33: click (670, 1143)
Your task to perform on an android device: How much does a 3 bedroom apartment rent for in Houston? Image 34: 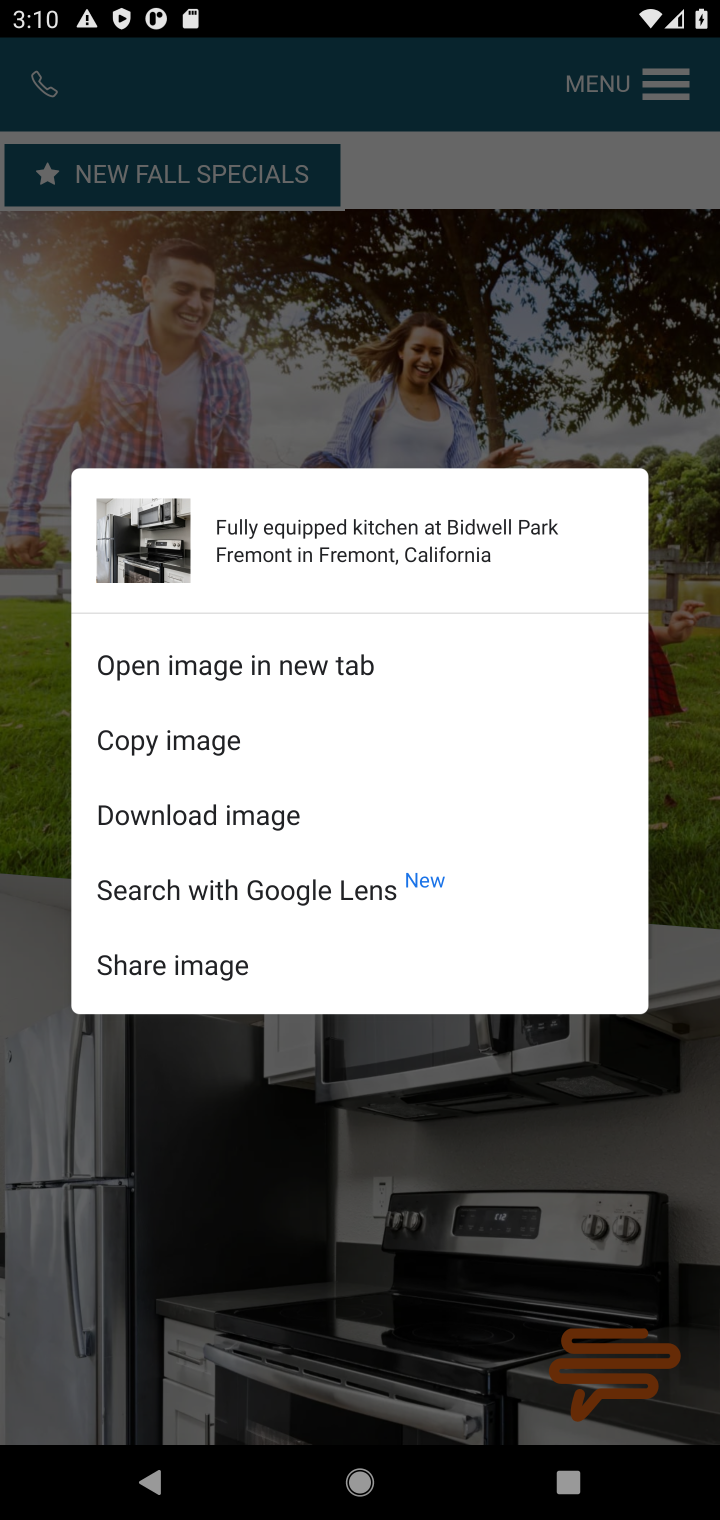
Step 34: task complete